Your task to perform on an android device: Clear the shopping cart on target. Add "logitech g903" to the cart on target Image 0: 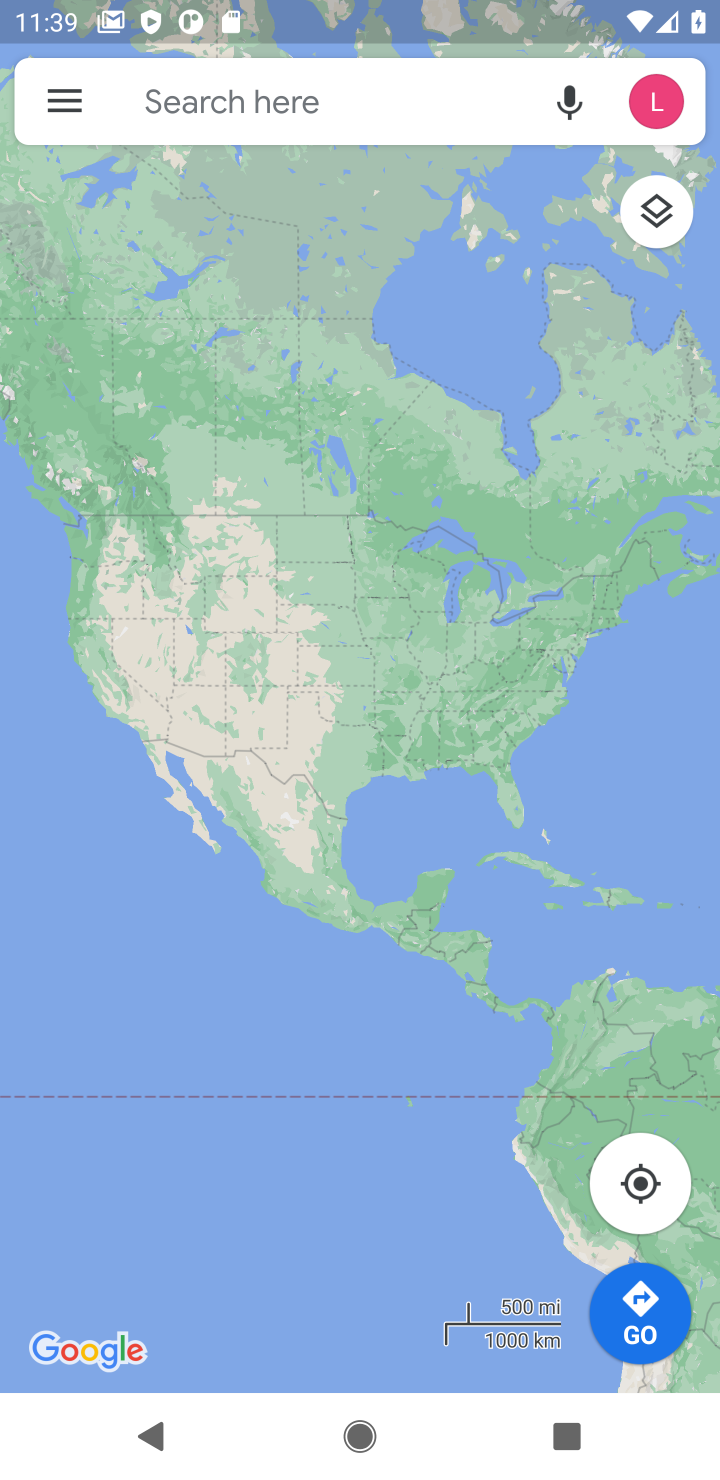
Step 0: press home button
Your task to perform on an android device: Clear the shopping cart on target. Add "logitech g903" to the cart on target Image 1: 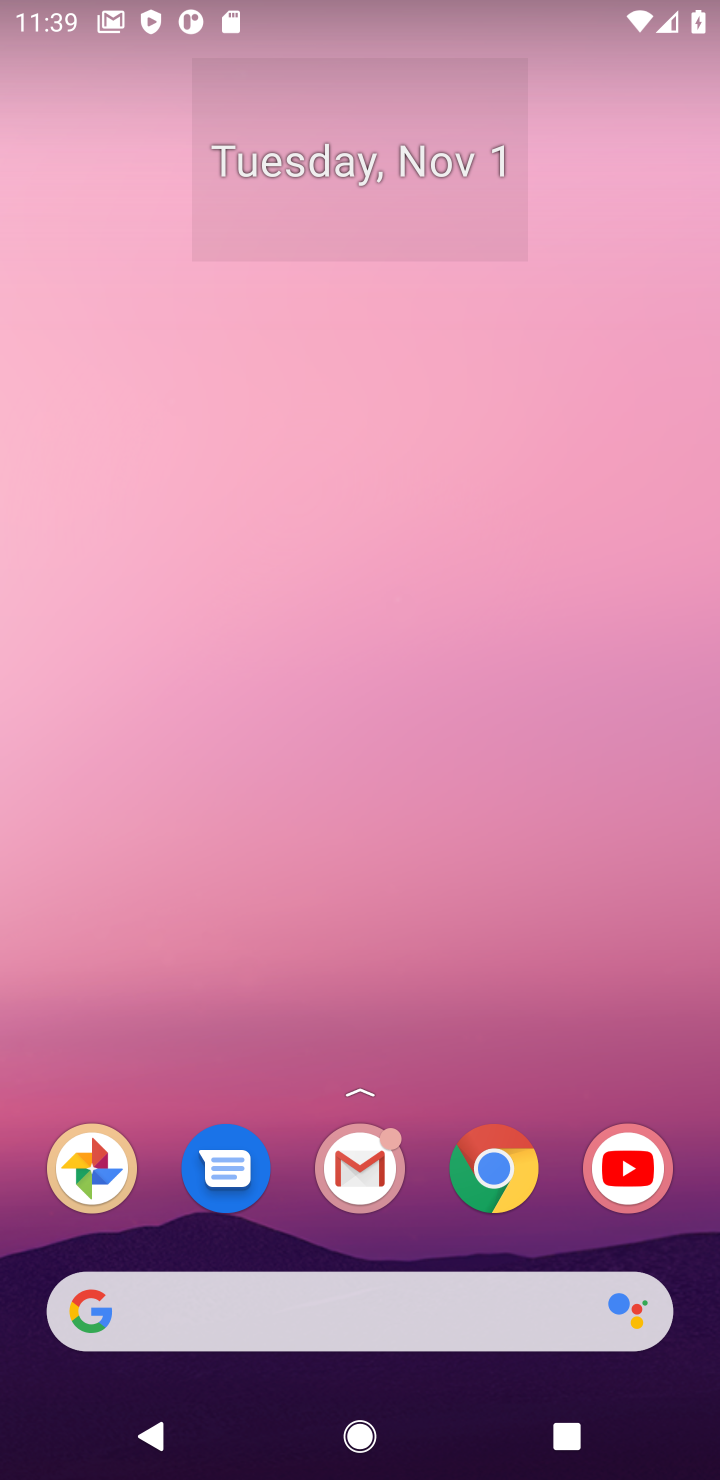
Step 1: click (516, 1176)
Your task to perform on an android device: Clear the shopping cart on target. Add "logitech g903" to the cart on target Image 2: 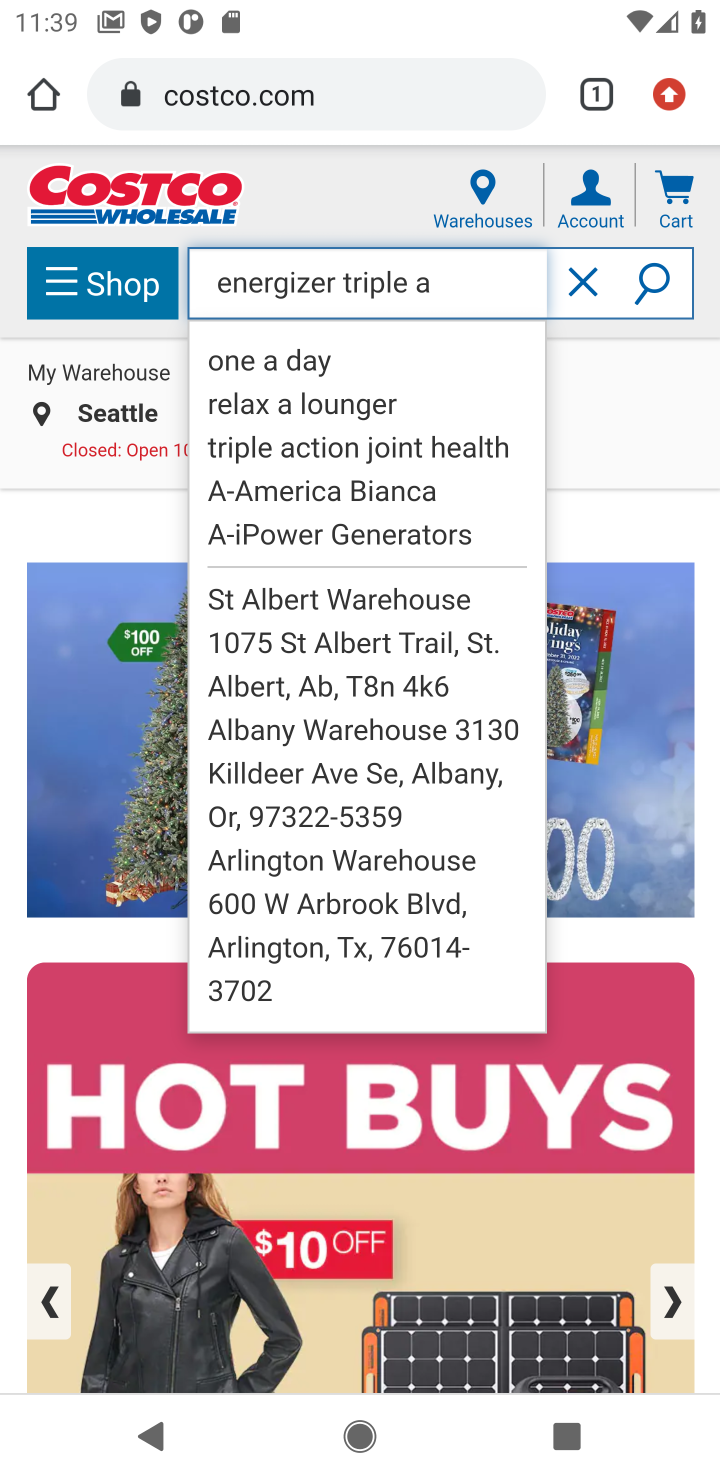
Step 2: click (436, 84)
Your task to perform on an android device: Clear the shopping cart on target. Add "logitech g903" to the cart on target Image 3: 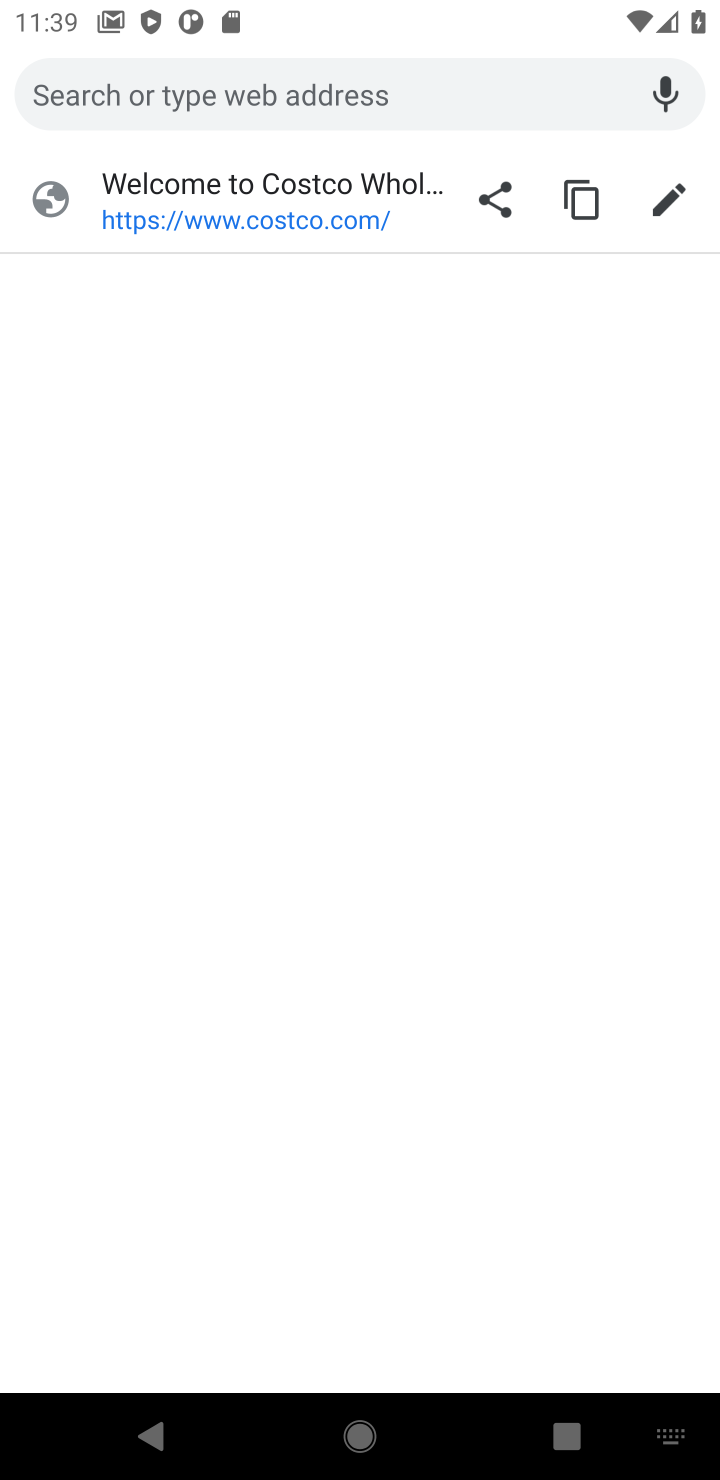
Step 3: type "target"
Your task to perform on an android device: Clear the shopping cart on target. Add "logitech g903" to the cart on target Image 4: 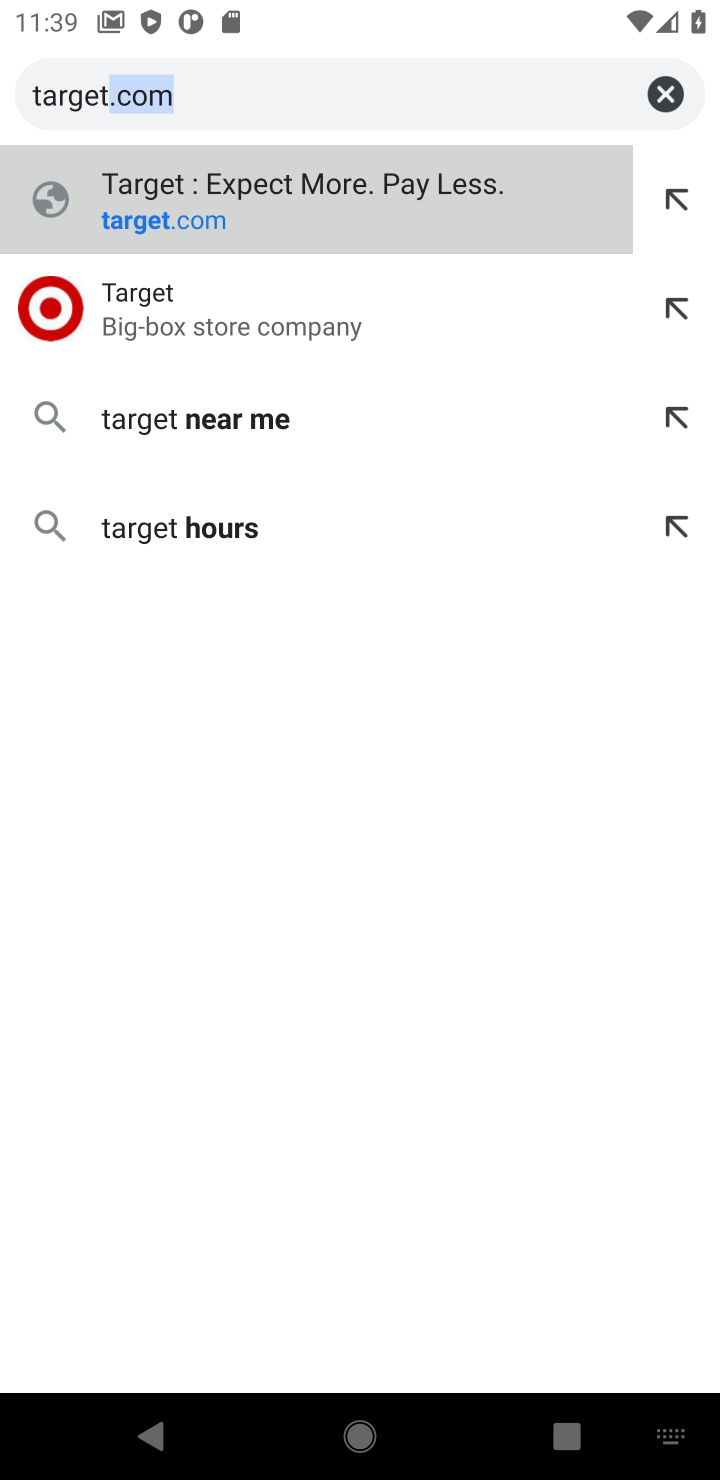
Step 4: click (217, 330)
Your task to perform on an android device: Clear the shopping cart on target. Add "logitech g903" to the cart on target Image 5: 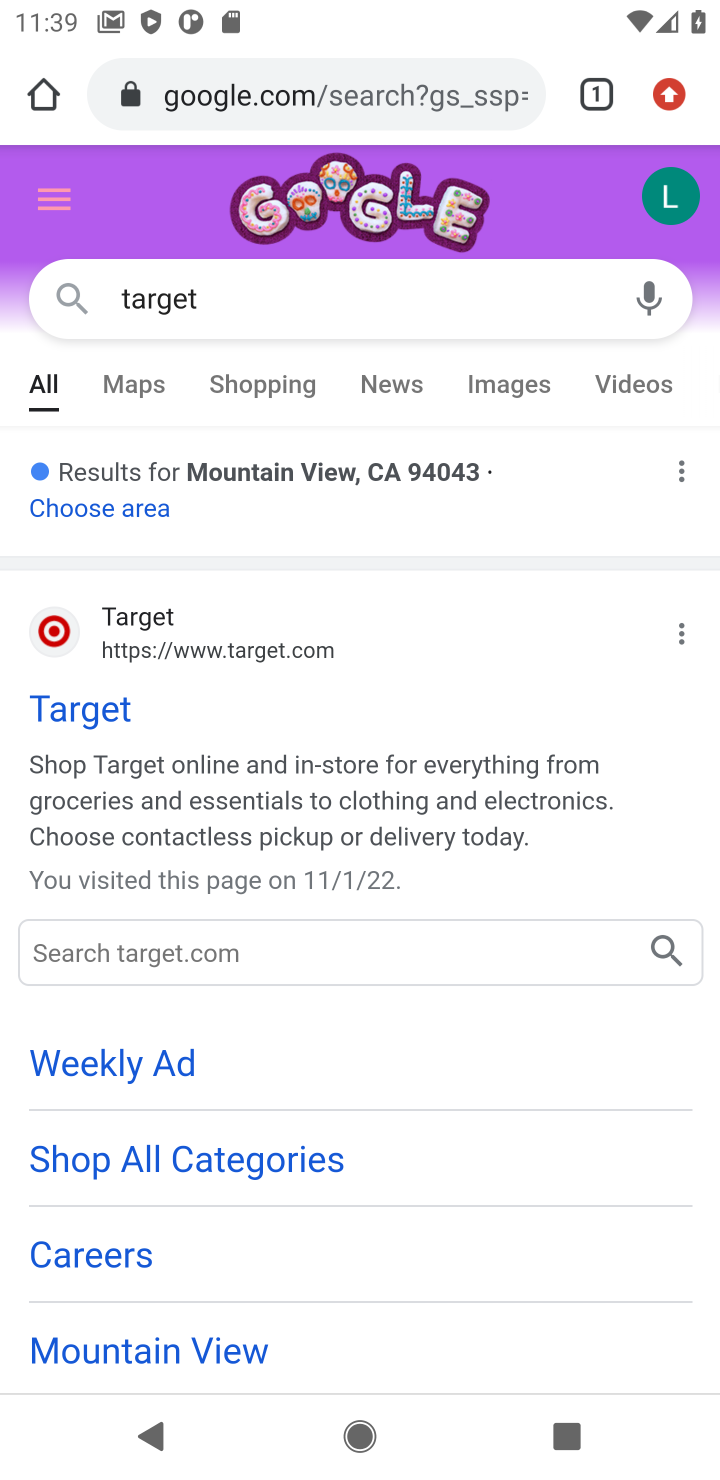
Step 5: click (131, 634)
Your task to perform on an android device: Clear the shopping cart on target. Add "logitech g903" to the cart on target Image 6: 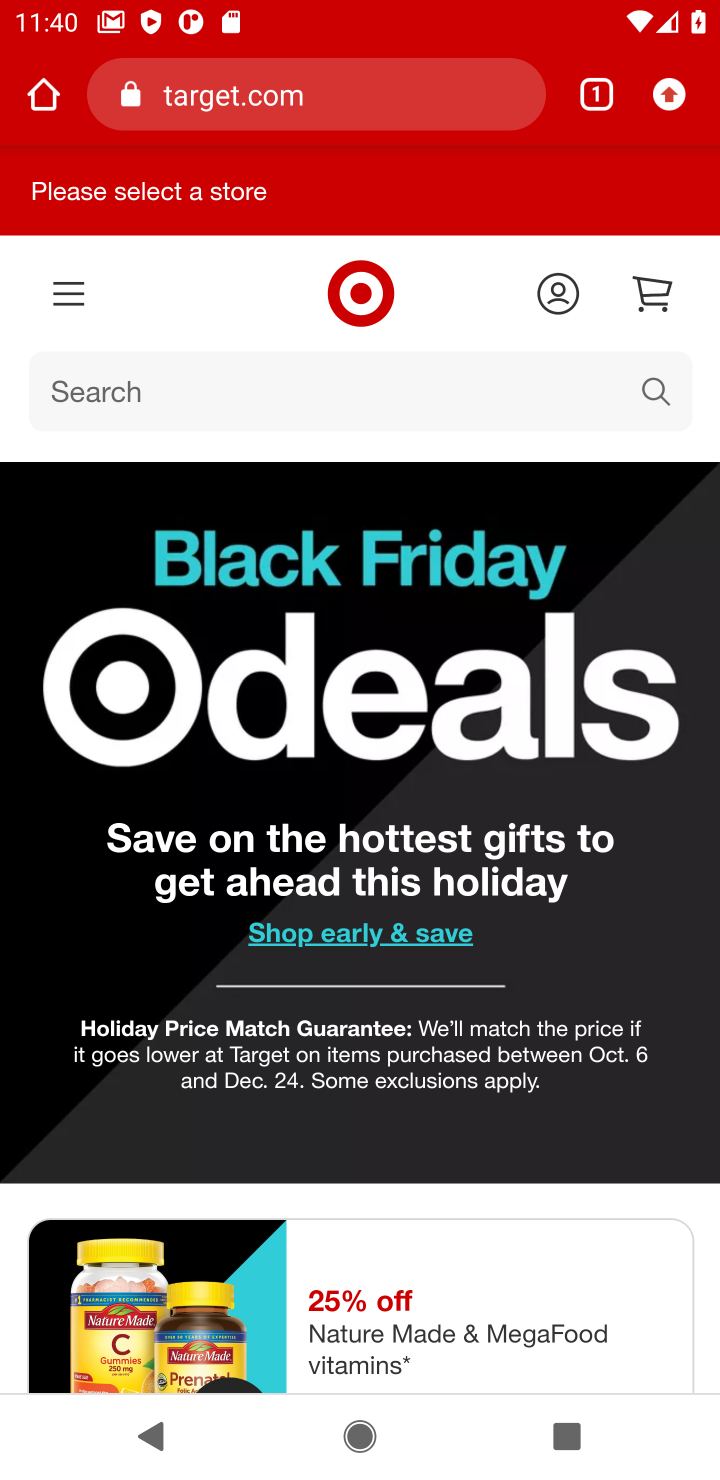
Step 6: click (308, 358)
Your task to perform on an android device: Clear the shopping cart on target. Add "logitech g903" to the cart on target Image 7: 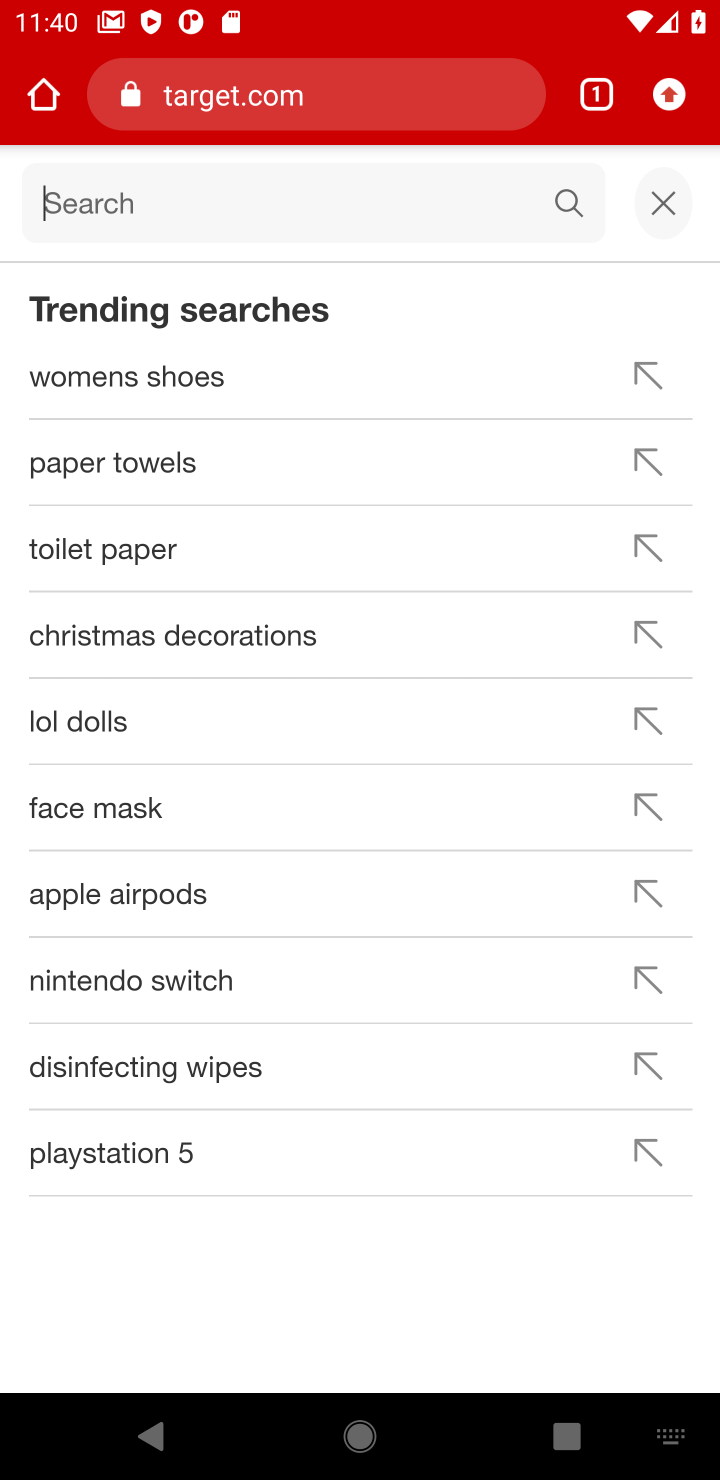
Step 7: type "logitech g903"
Your task to perform on an android device: Clear the shopping cart on target. Add "logitech g903" to the cart on target Image 8: 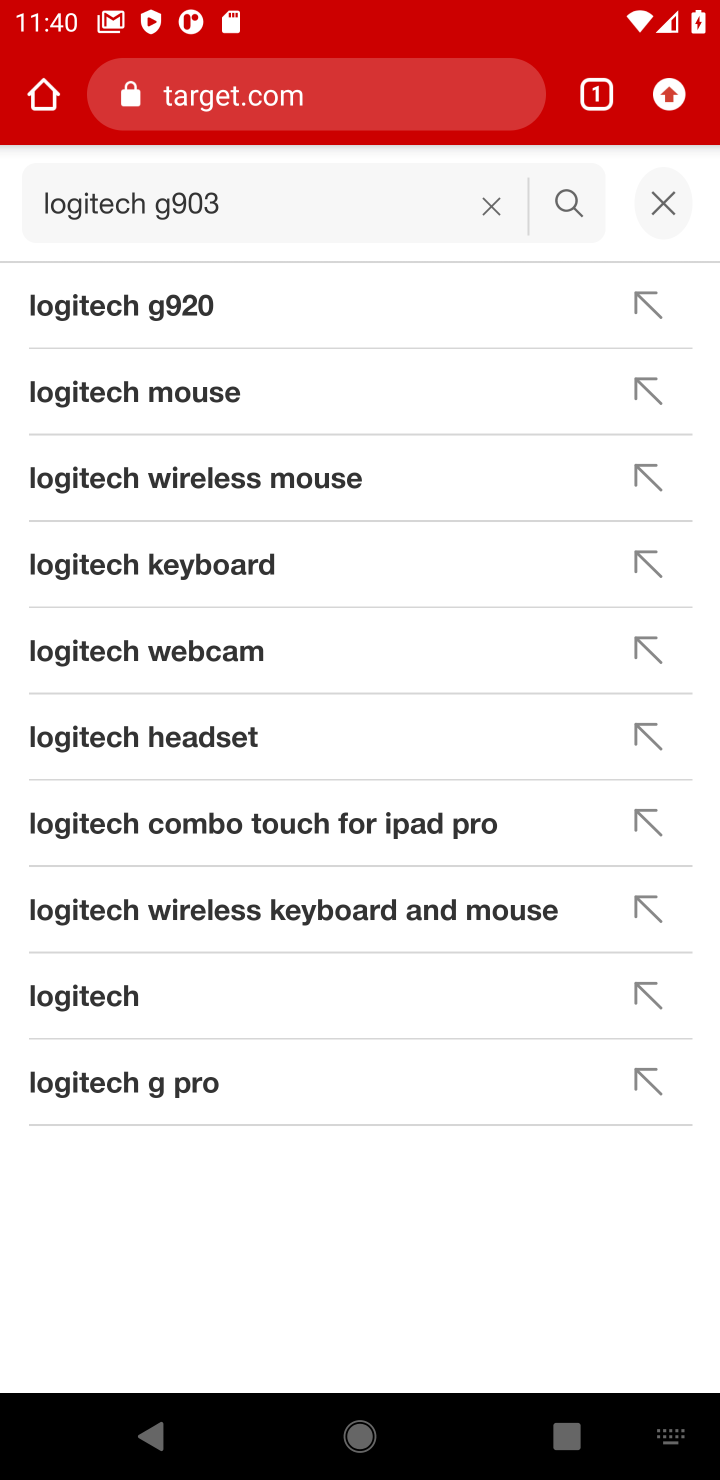
Step 8: click (394, 196)
Your task to perform on an android device: Clear the shopping cart on target. Add "logitech g903" to the cart on target Image 9: 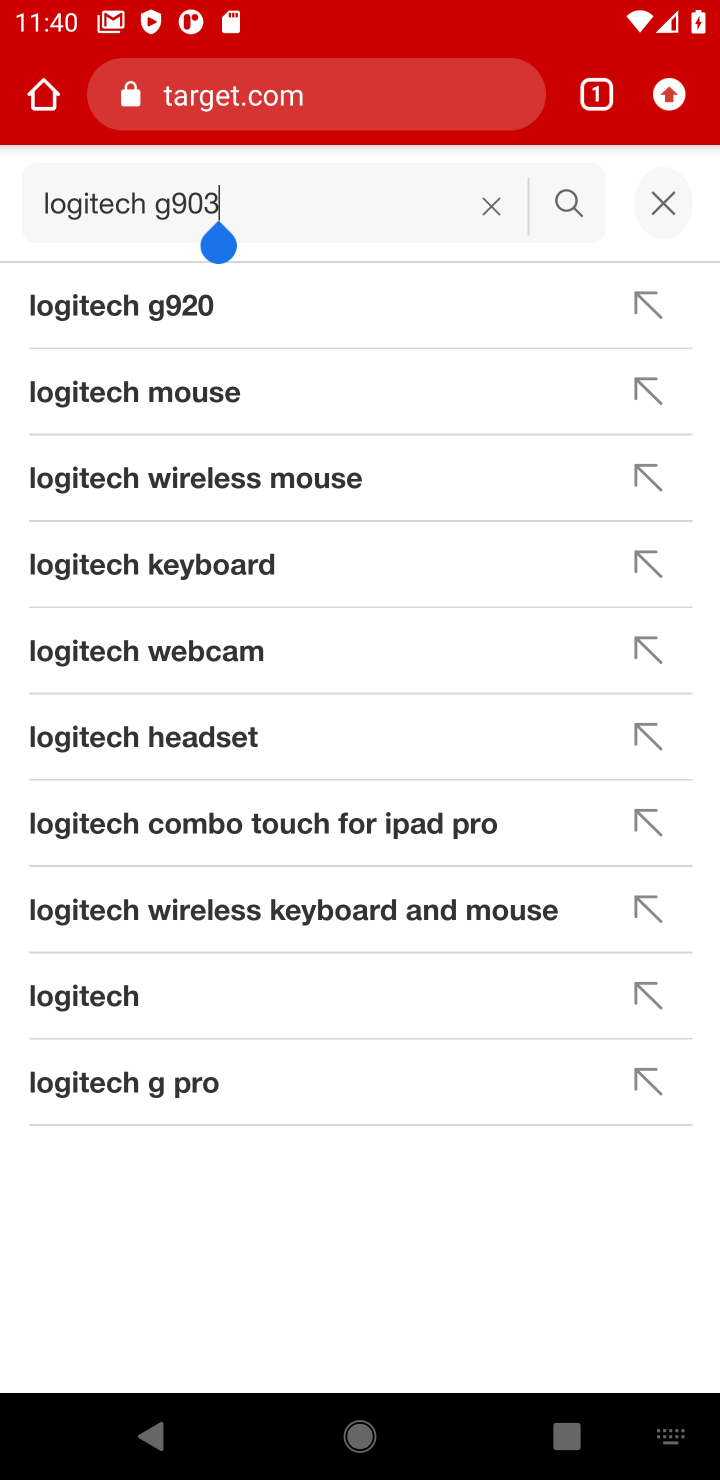
Step 9: click (161, 291)
Your task to perform on an android device: Clear the shopping cart on target. Add "logitech g903" to the cart on target Image 10: 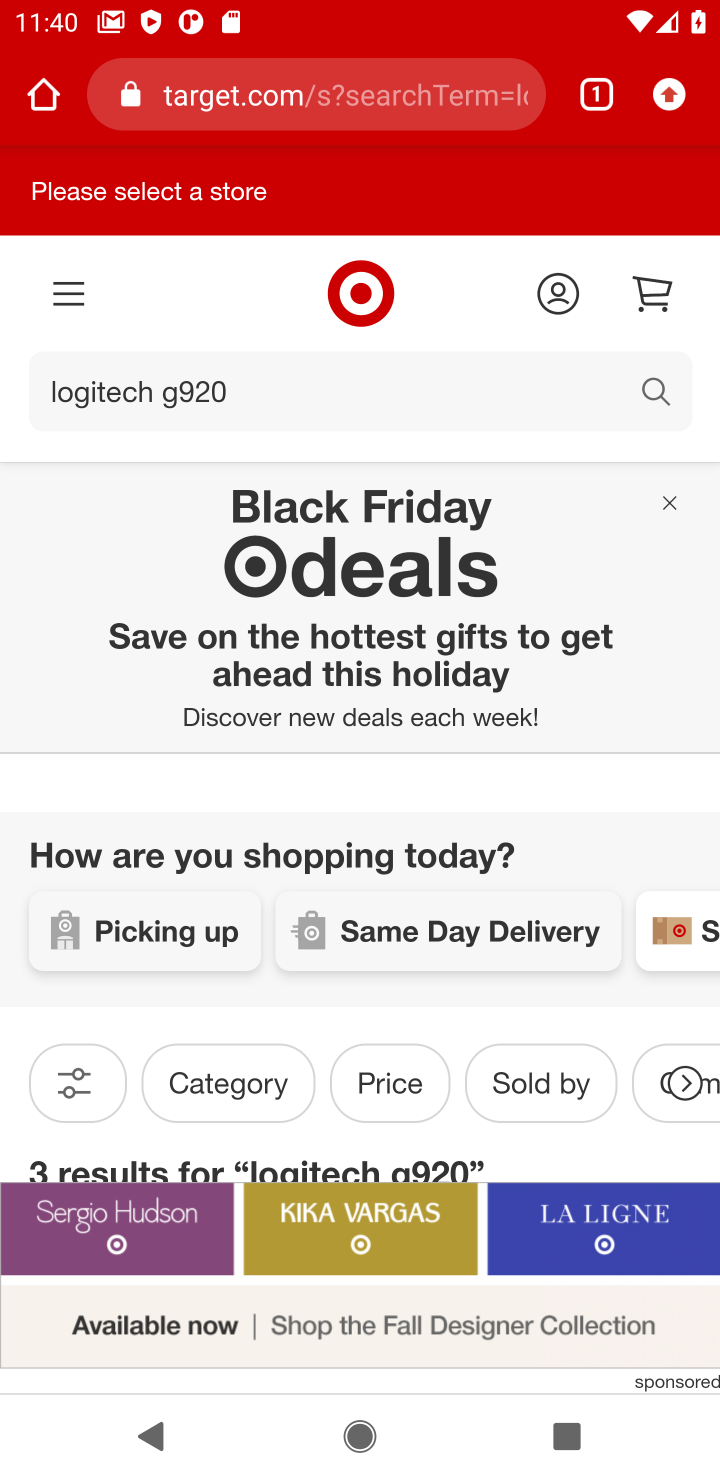
Step 10: drag from (528, 1150) to (446, 293)
Your task to perform on an android device: Clear the shopping cart on target. Add "logitech g903" to the cart on target Image 11: 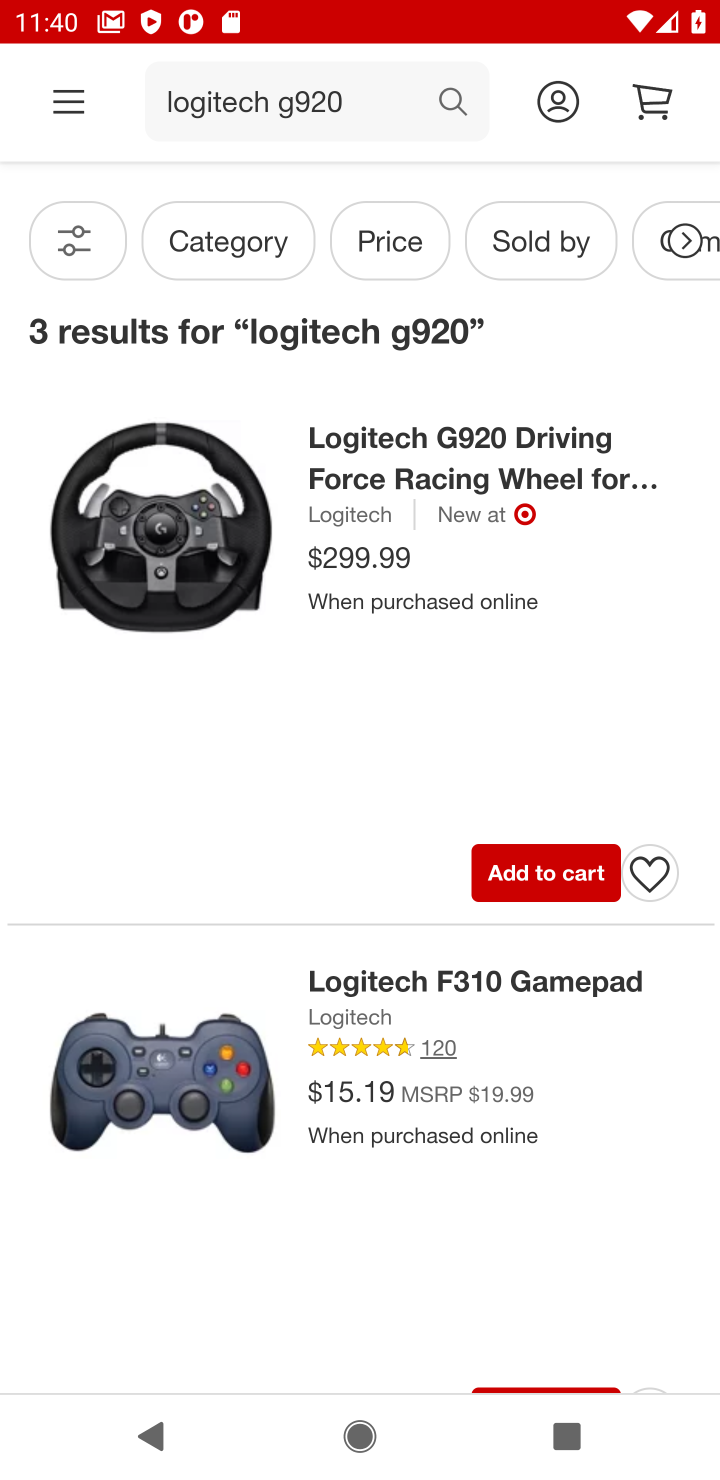
Step 11: drag from (554, 1057) to (466, 372)
Your task to perform on an android device: Clear the shopping cart on target. Add "logitech g903" to the cart on target Image 12: 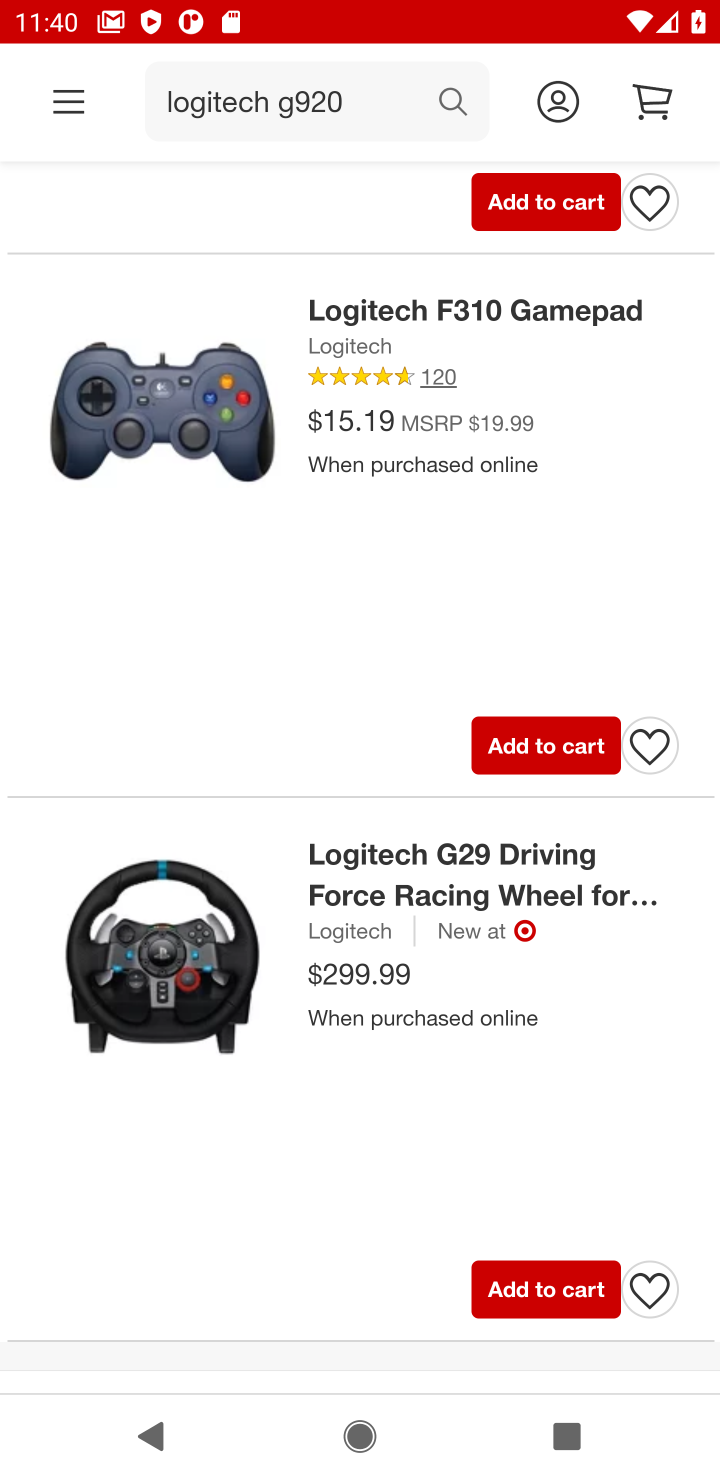
Step 12: drag from (484, 903) to (437, 440)
Your task to perform on an android device: Clear the shopping cart on target. Add "logitech g903" to the cart on target Image 13: 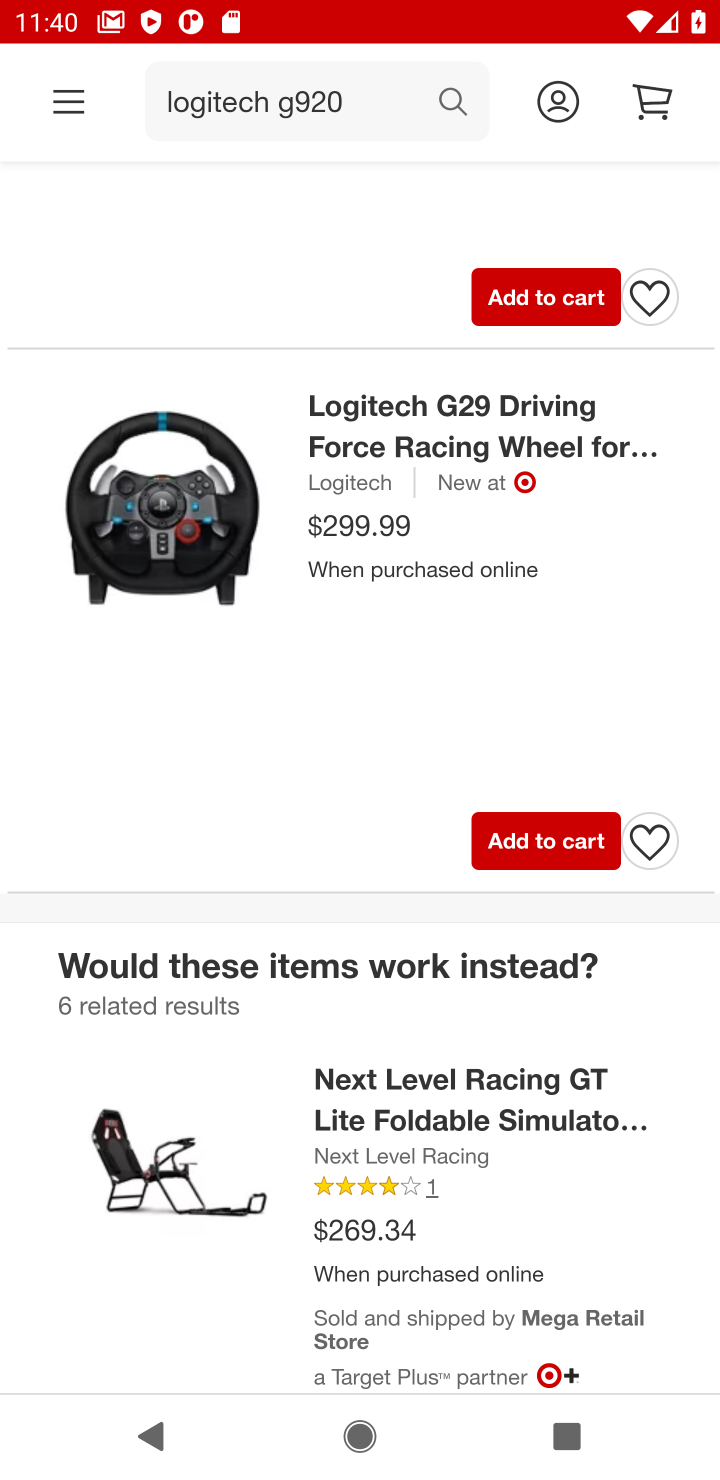
Step 13: drag from (512, 1102) to (445, 460)
Your task to perform on an android device: Clear the shopping cart on target. Add "logitech g903" to the cart on target Image 14: 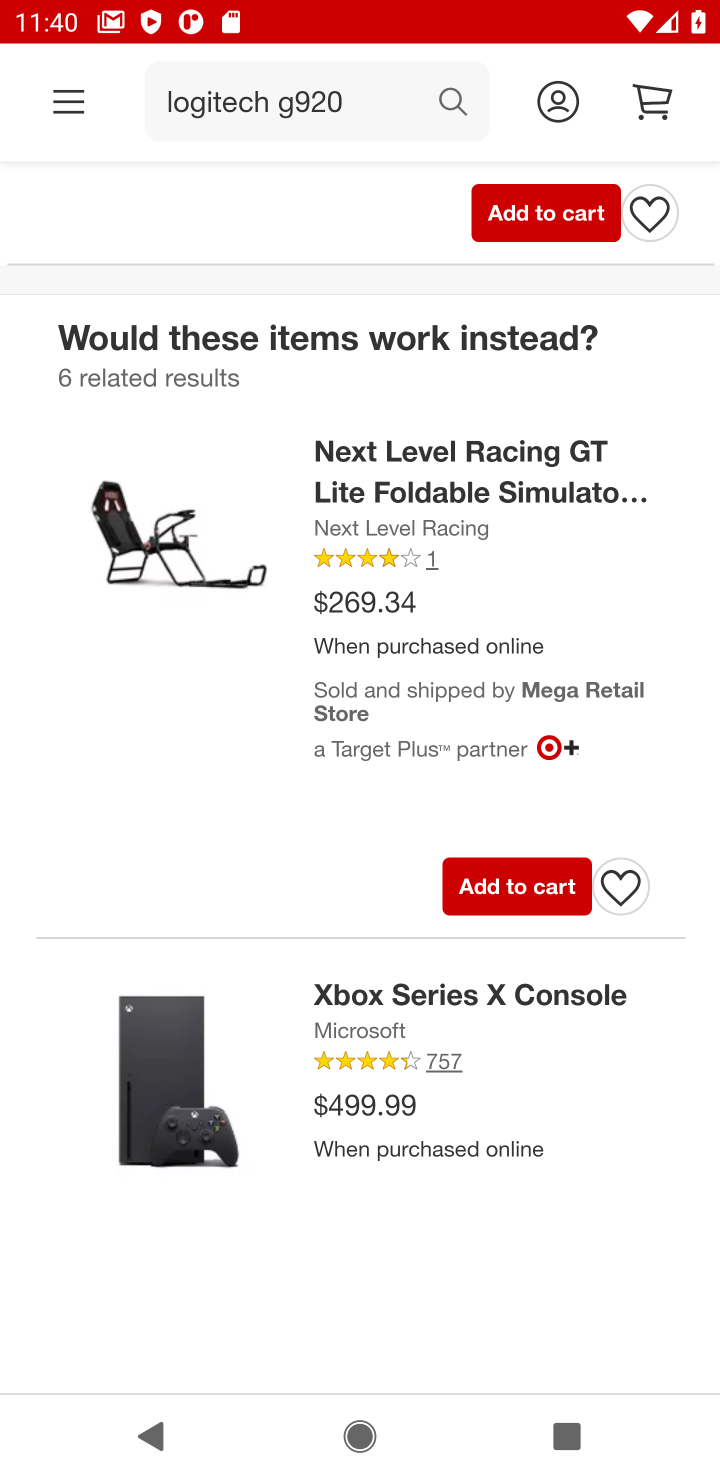
Step 14: drag from (423, 1112) to (409, 407)
Your task to perform on an android device: Clear the shopping cart on target. Add "logitech g903" to the cart on target Image 15: 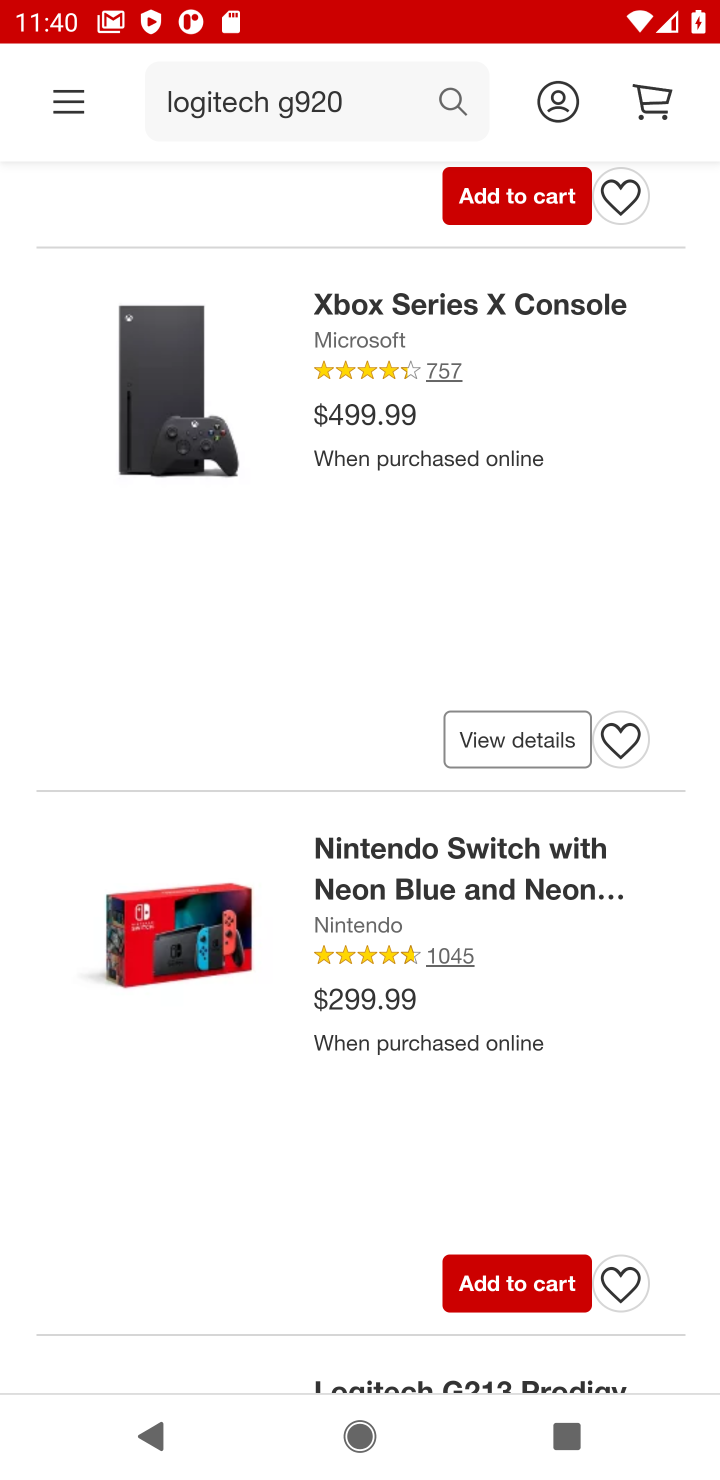
Step 15: drag from (436, 861) to (497, 440)
Your task to perform on an android device: Clear the shopping cart on target. Add "logitech g903" to the cart on target Image 16: 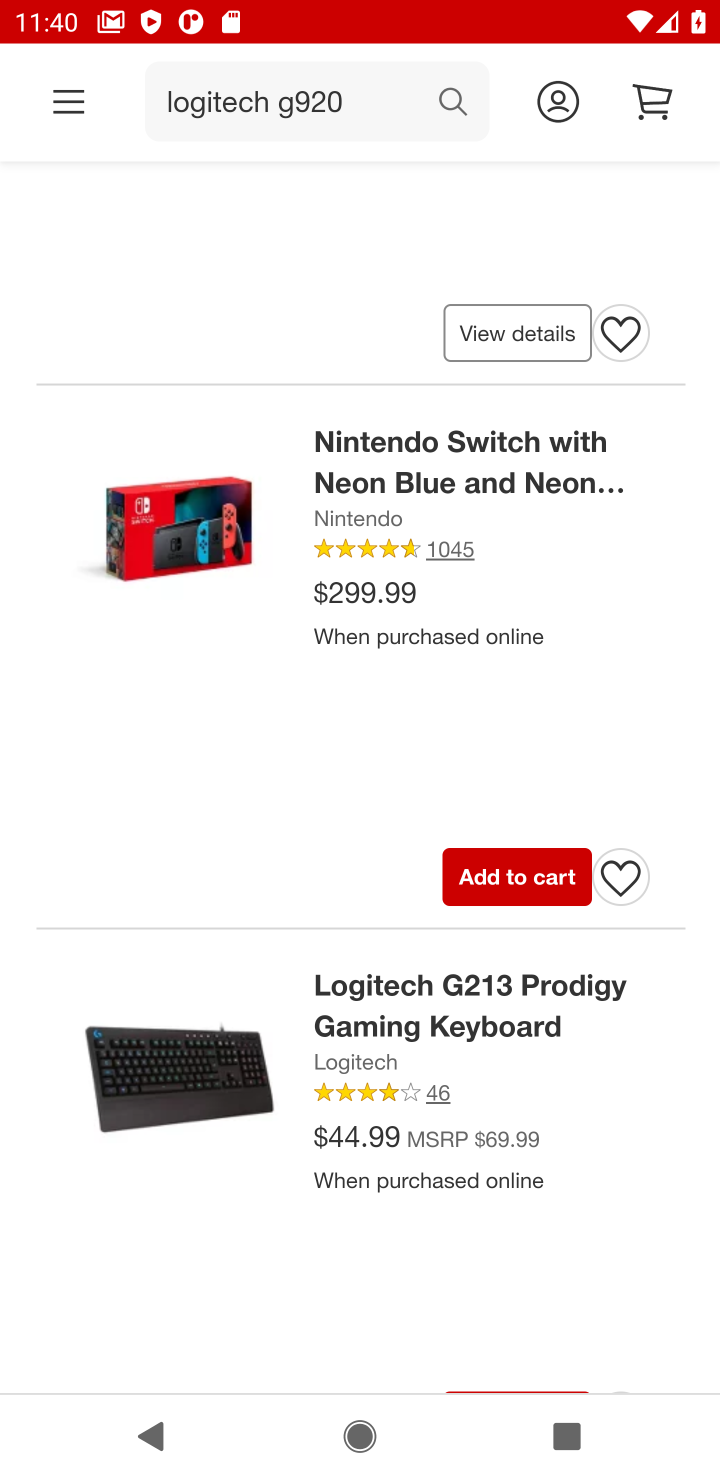
Step 16: drag from (453, 1126) to (514, 485)
Your task to perform on an android device: Clear the shopping cart on target. Add "logitech g903" to the cart on target Image 17: 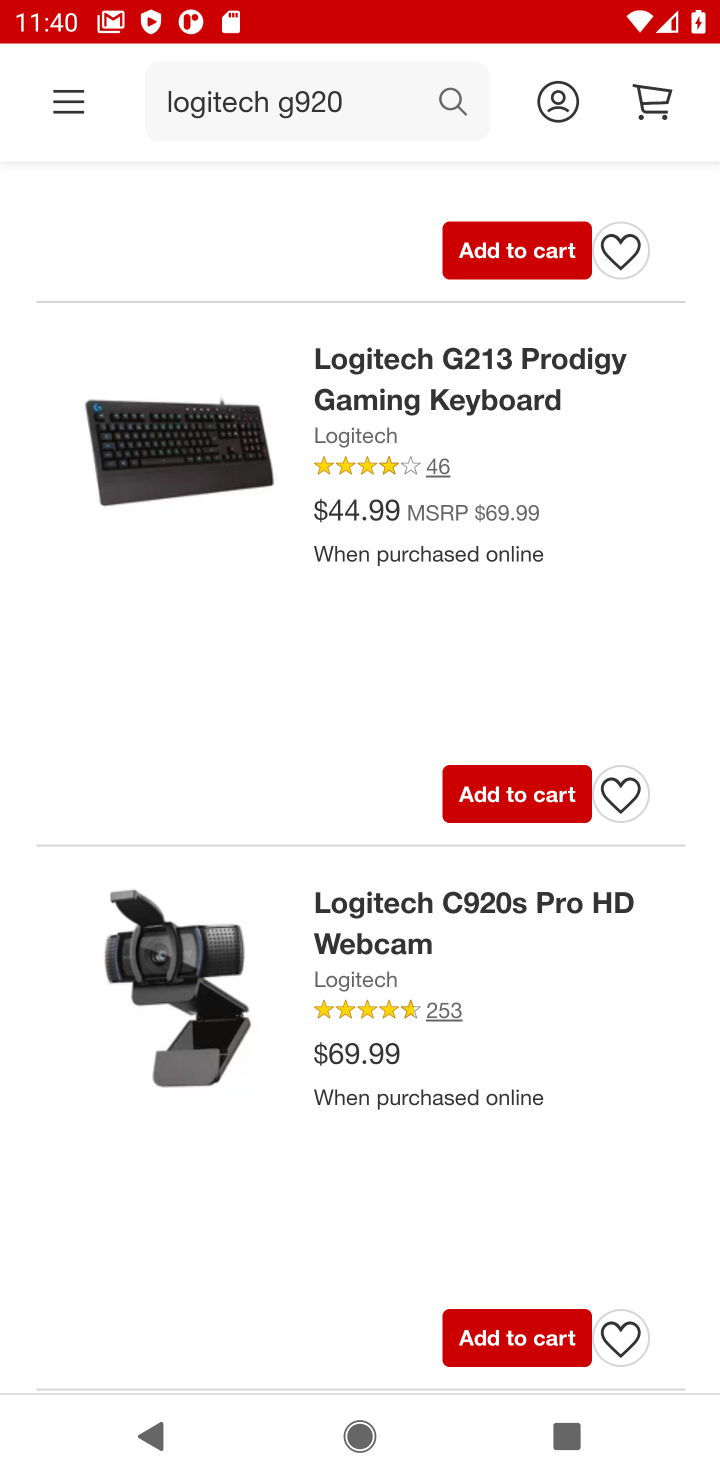
Step 17: drag from (496, 1028) to (510, 466)
Your task to perform on an android device: Clear the shopping cart on target. Add "logitech g903" to the cart on target Image 18: 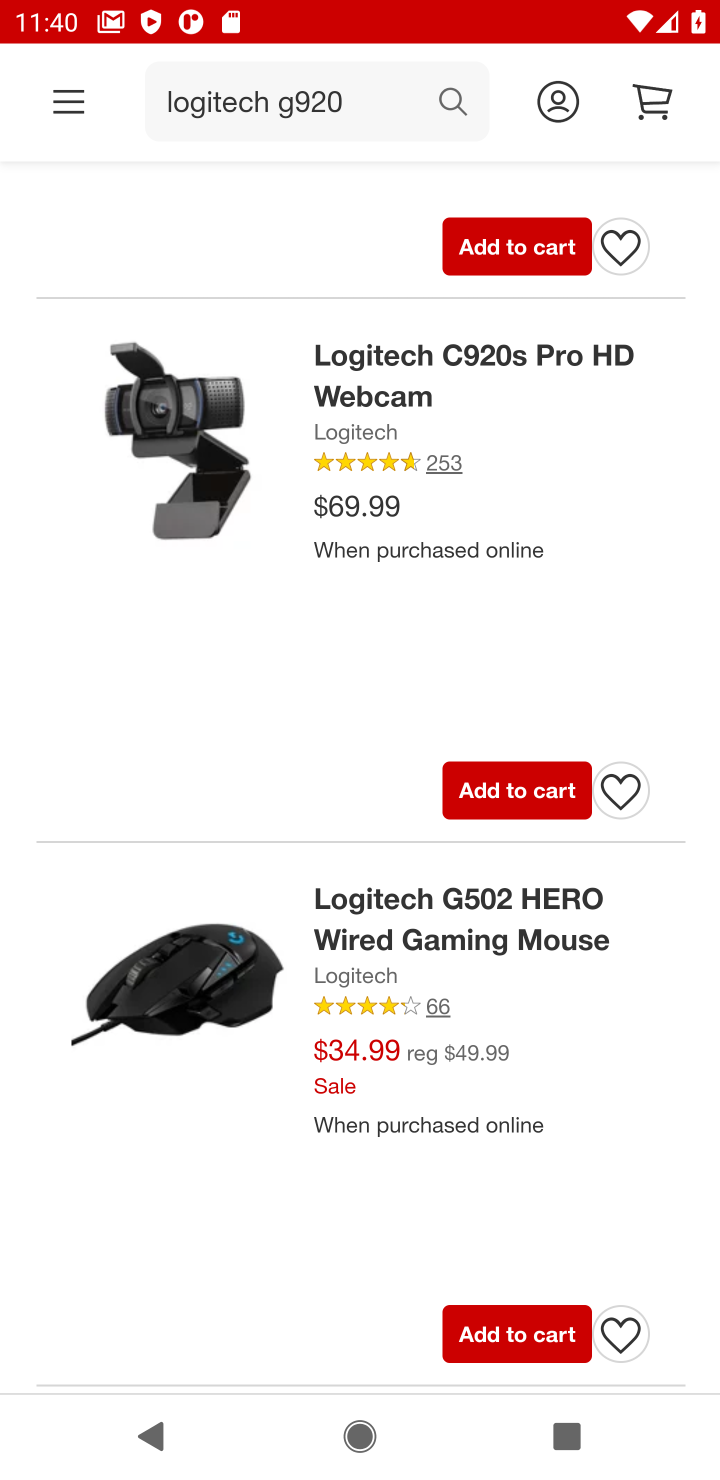
Step 18: drag from (514, 1165) to (486, 402)
Your task to perform on an android device: Clear the shopping cart on target. Add "logitech g903" to the cart on target Image 19: 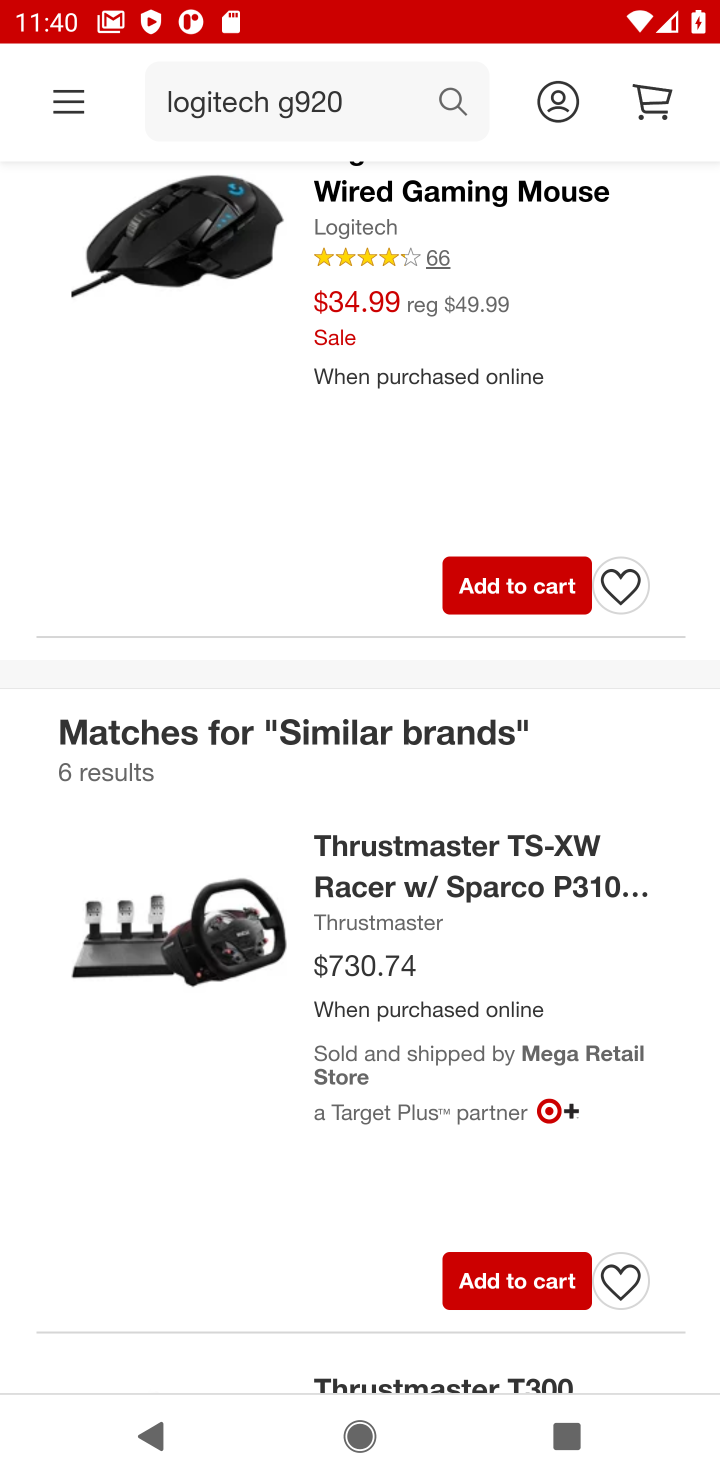
Step 19: drag from (492, 979) to (492, 398)
Your task to perform on an android device: Clear the shopping cart on target. Add "logitech g903" to the cart on target Image 20: 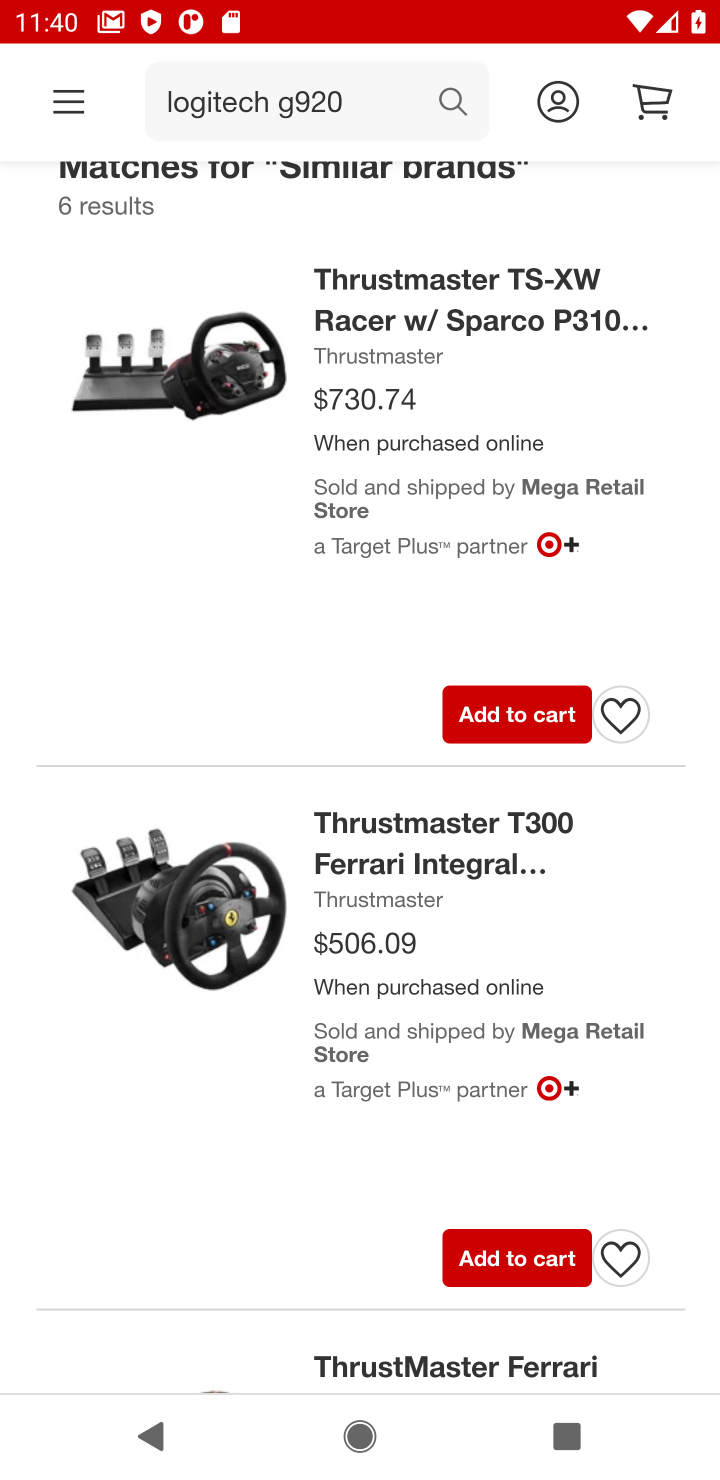
Step 20: drag from (365, 929) to (510, 425)
Your task to perform on an android device: Clear the shopping cart on target. Add "logitech g903" to the cart on target Image 21: 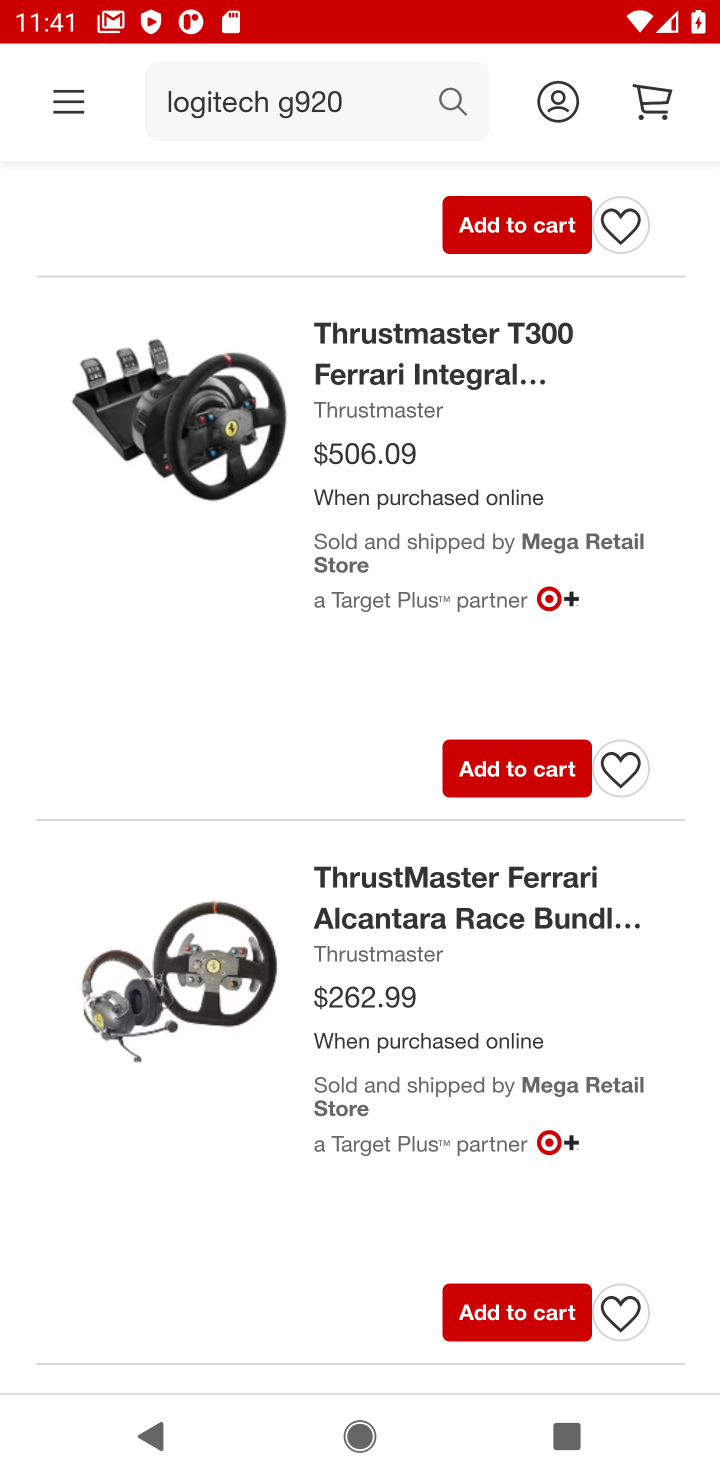
Step 21: drag from (411, 954) to (389, 379)
Your task to perform on an android device: Clear the shopping cart on target. Add "logitech g903" to the cart on target Image 22: 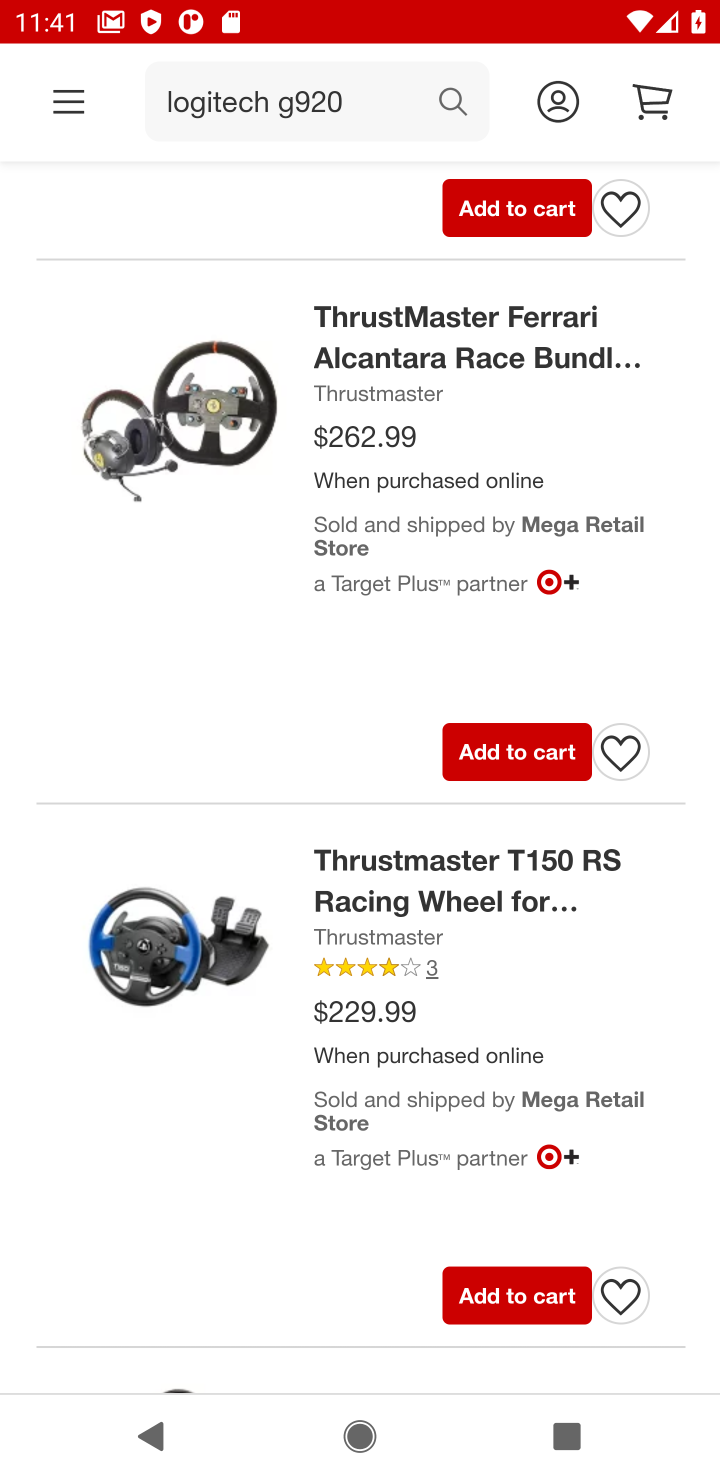
Step 22: drag from (341, 1061) to (309, 406)
Your task to perform on an android device: Clear the shopping cart on target. Add "logitech g903" to the cart on target Image 23: 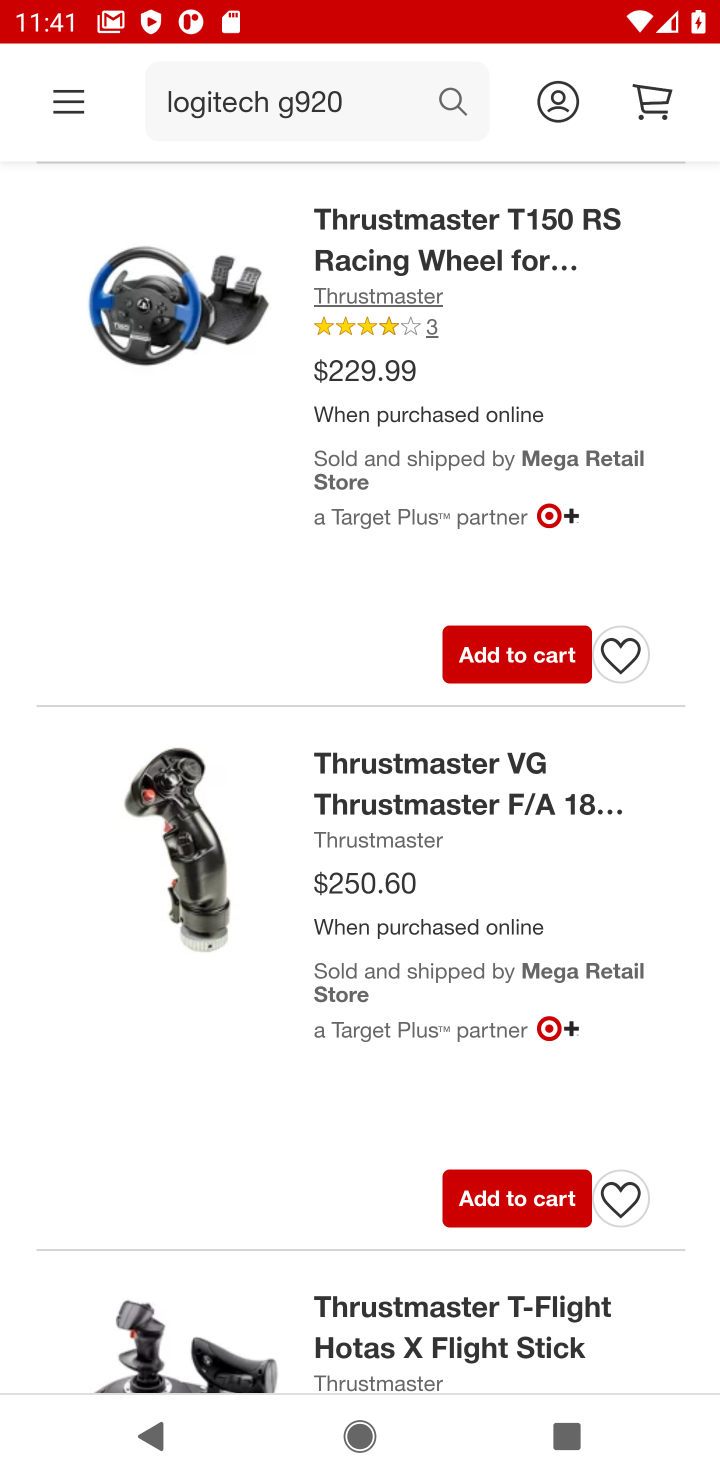
Step 23: drag from (438, 1331) to (360, 543)
Your task to perform on an android device: Clear the shopping cart on target. Add "logitech g903" to the cart on target Image 24: 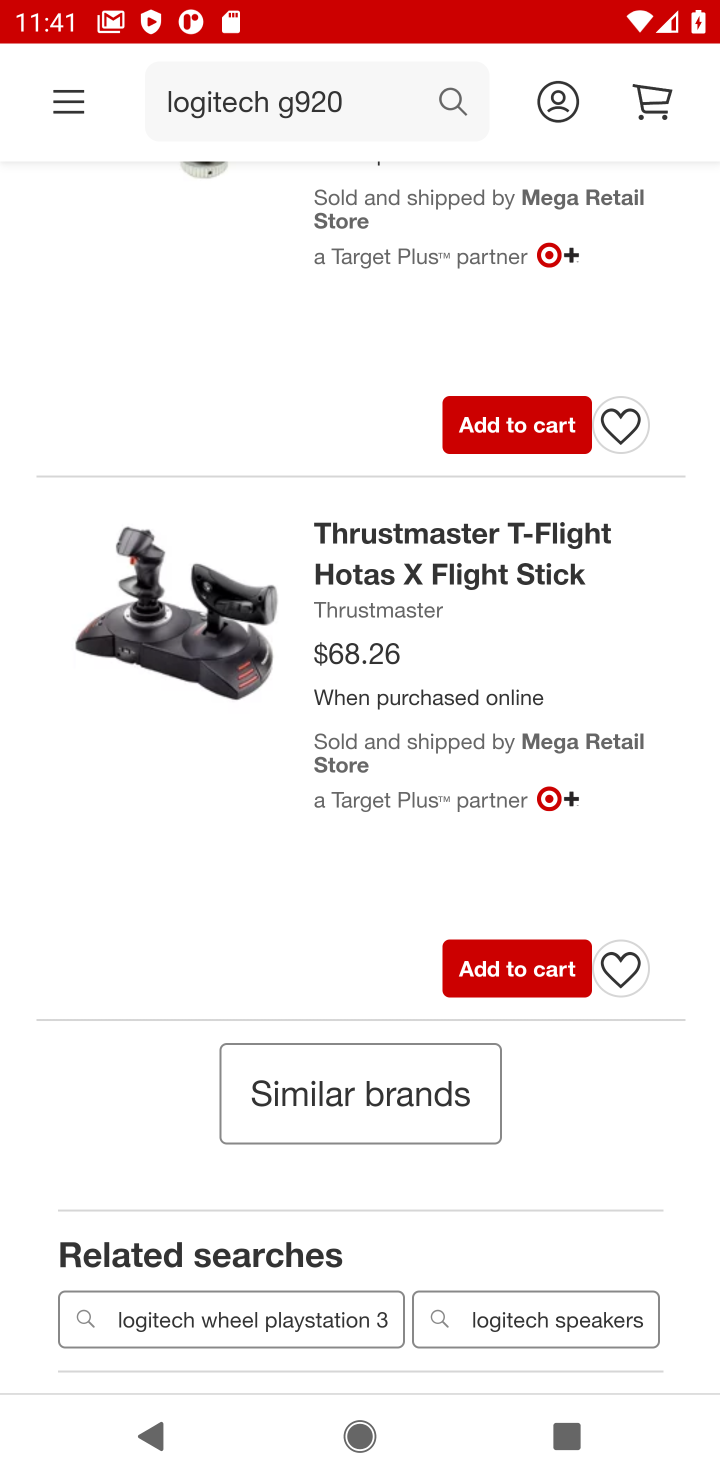
Step 24: drag from (374, 605) to (427, 1206)
Your task to perform on an android device: Clear the shopping cart on target. Add "logitech g903" to the cart on target Image 25: 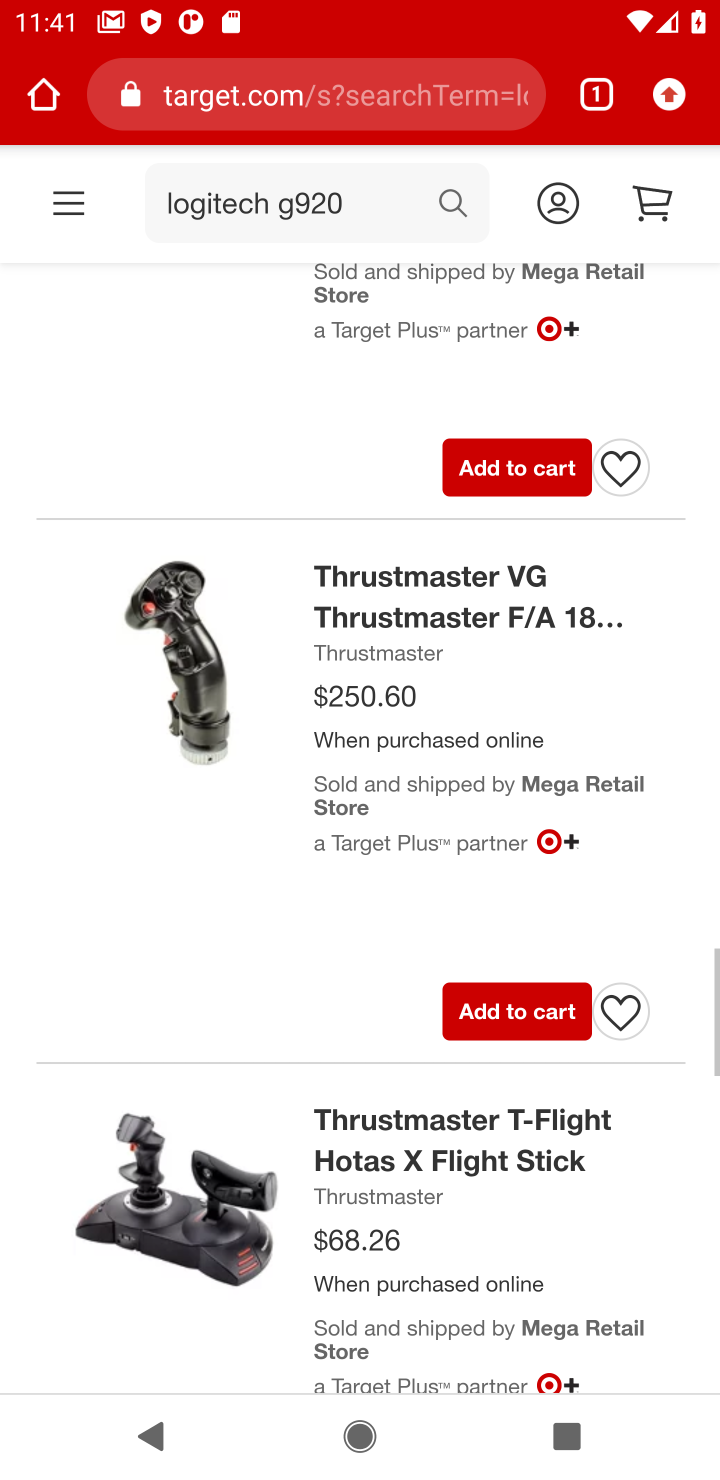
Step 25: drag from (384, 525) to (374, 1102)
Your task to perform on an android device: Clear the shopping cart on target. Add "logitech g903" to the cart on target Image 26: 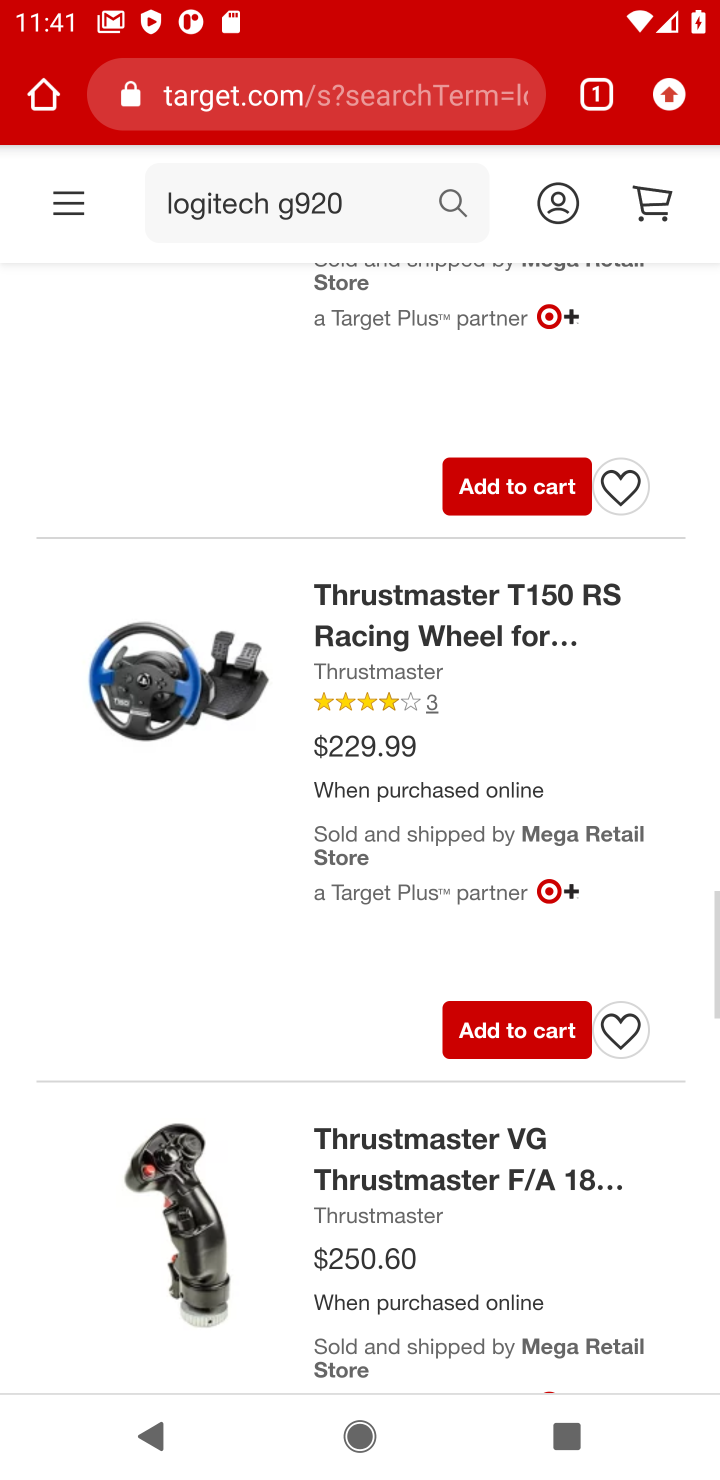
Step 26: drag from (324, 439) to (375, 1060)
Your task to perform on an android device: Clear the shopping cart on target. Add "logitech g903" to the cart on target Image 27: 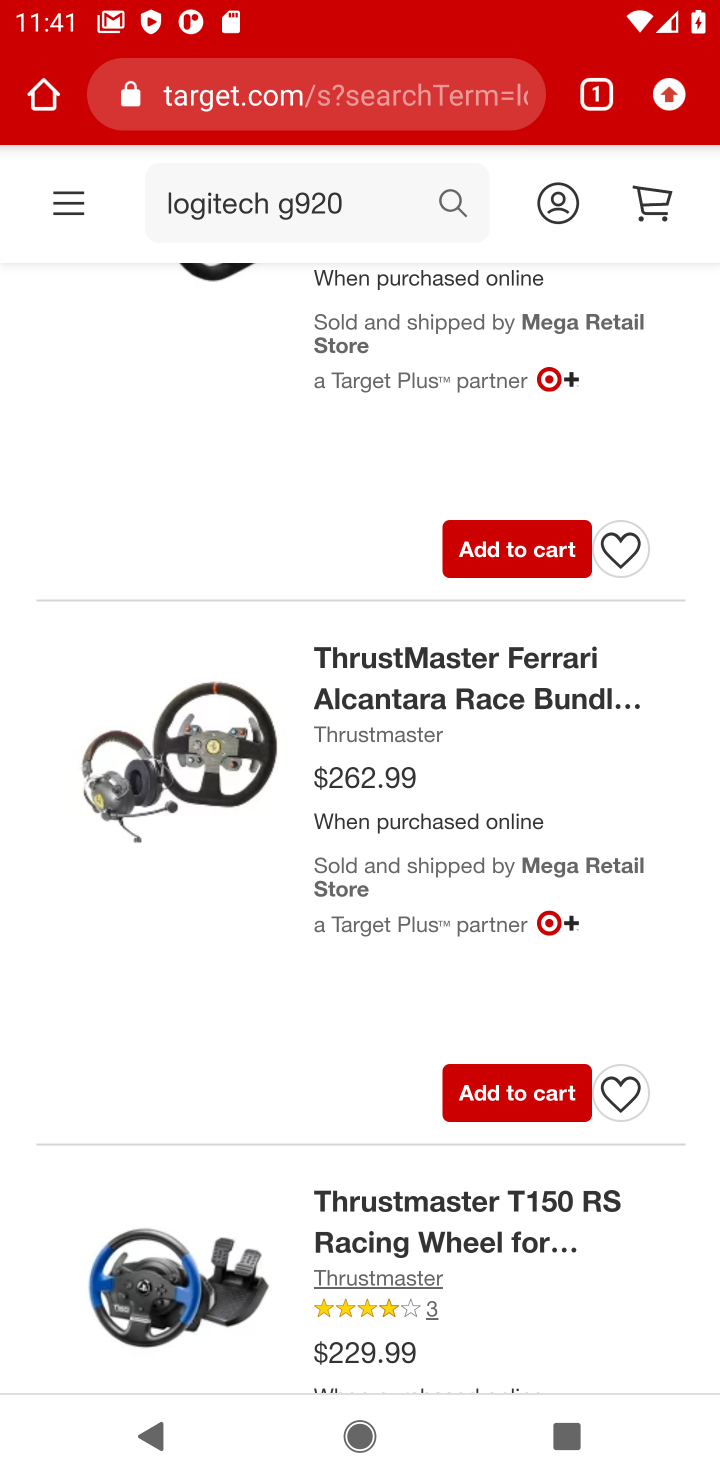
Step 27: drag from (294, 480) to (360, 1116)
Your task to perform on an android device: Clear the shopping cart on target. Add "logitech g903" to the cart on target Image 28: 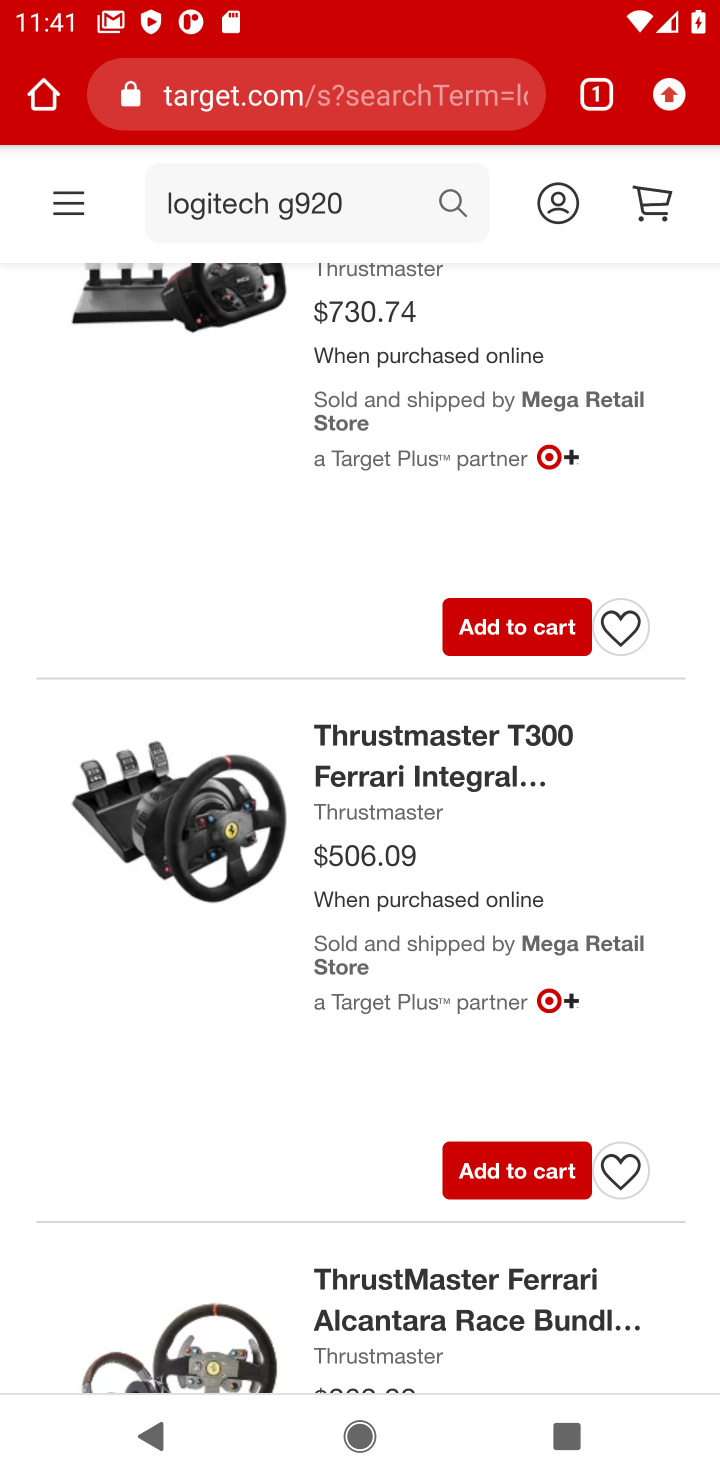
Step 28: drag from (231, 727) to (276, 1121)
Your task to perform on an android device: Clear the shopping cart on target. Add "logitech g903" to the cart on target Image 29: 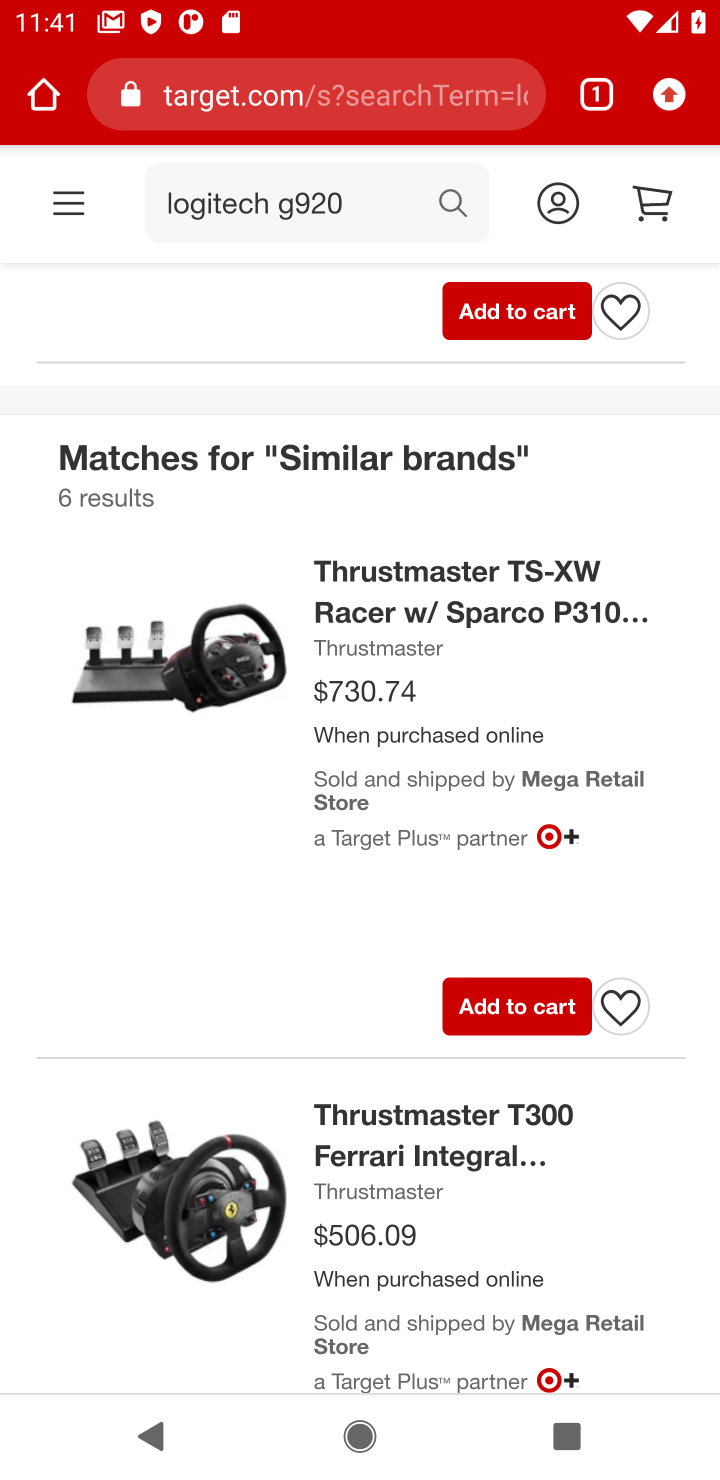
Step 29: drag from (202, 592) to (343, 1108)
Your task to perform on an android device: Clear the shopping cart on target. Add "logitech g903" to the cart on target Image 30: 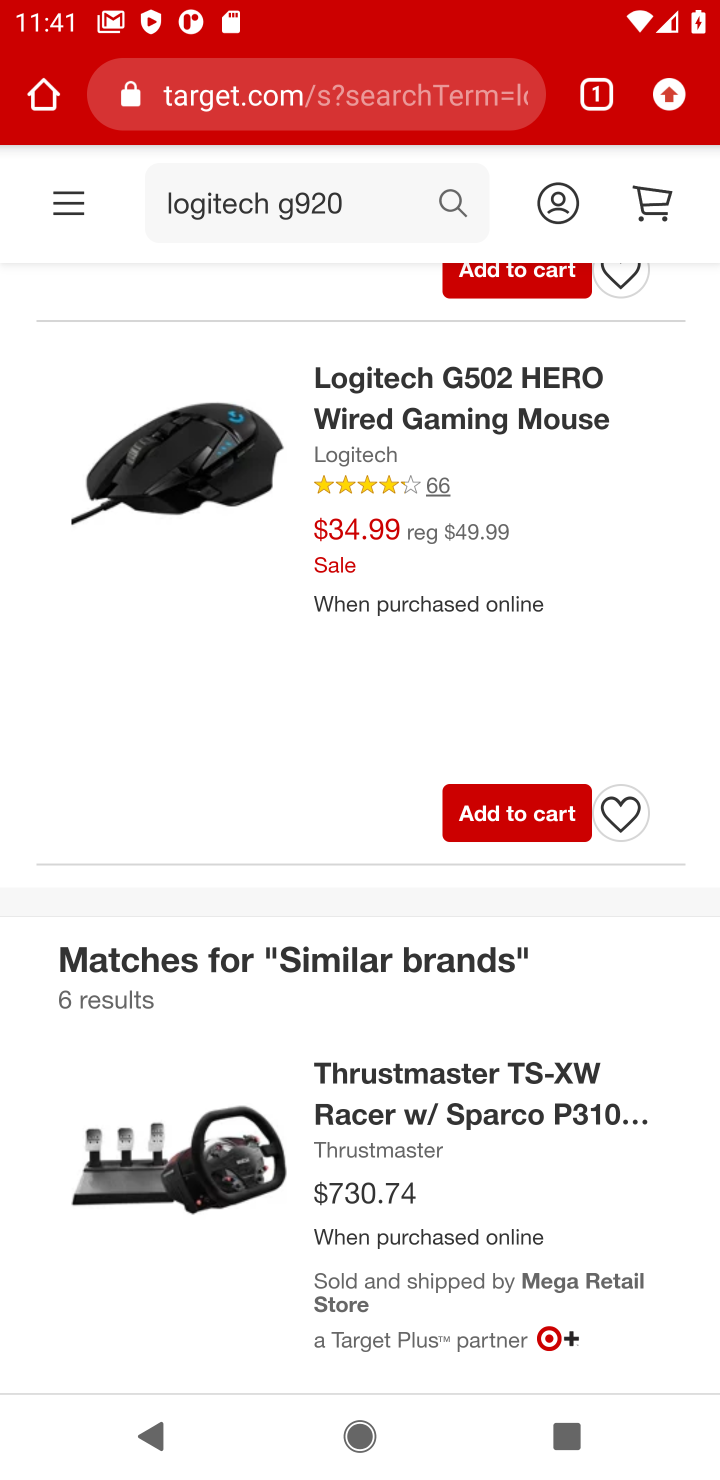
Step 30: click (142, 414)
Your task to perform on an android device: Clear the shopping cart on target. Add "logitech g903" to the cart on target Image 31: 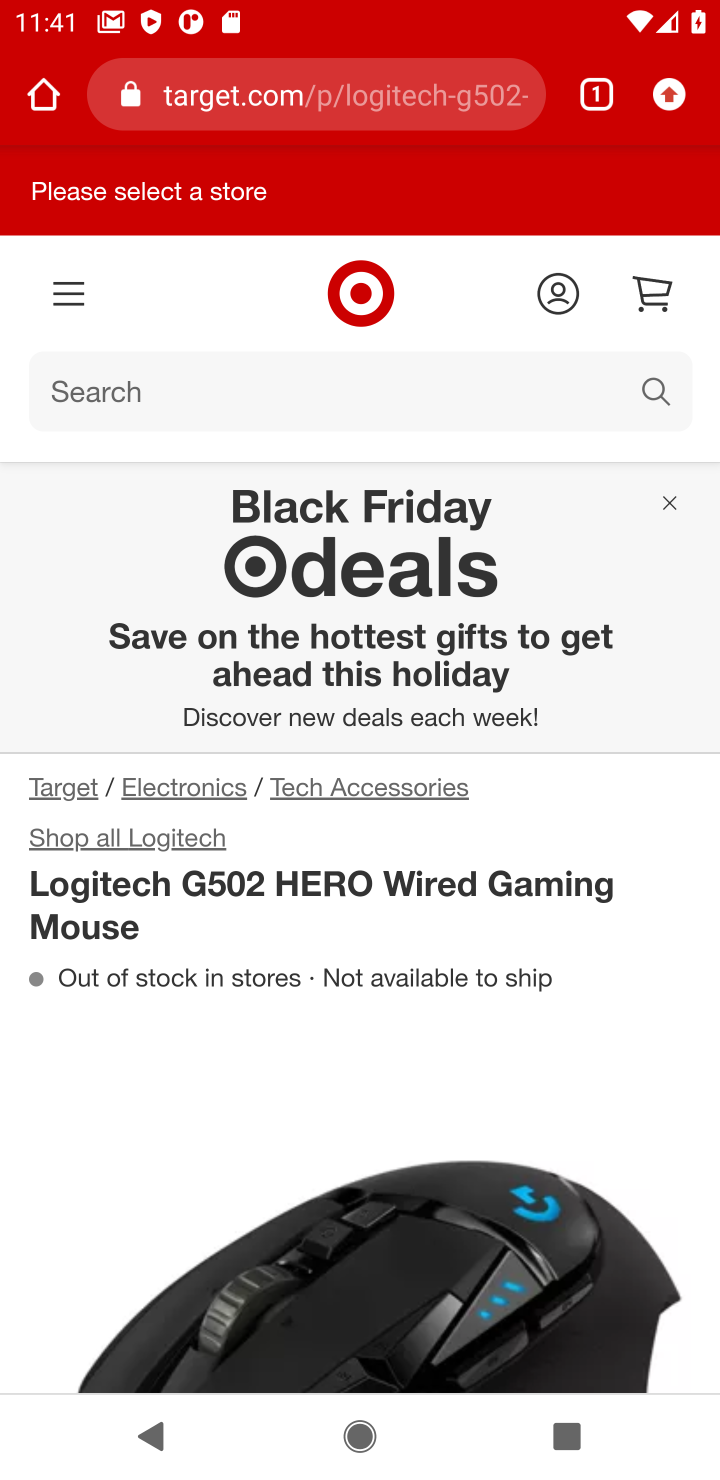
Step 31: drag from (615, 1044) to (581, 312)
Your task to perform on an android device: Clear the shopping cart on target. Add "logitech g903" to the cart on target Image 32: 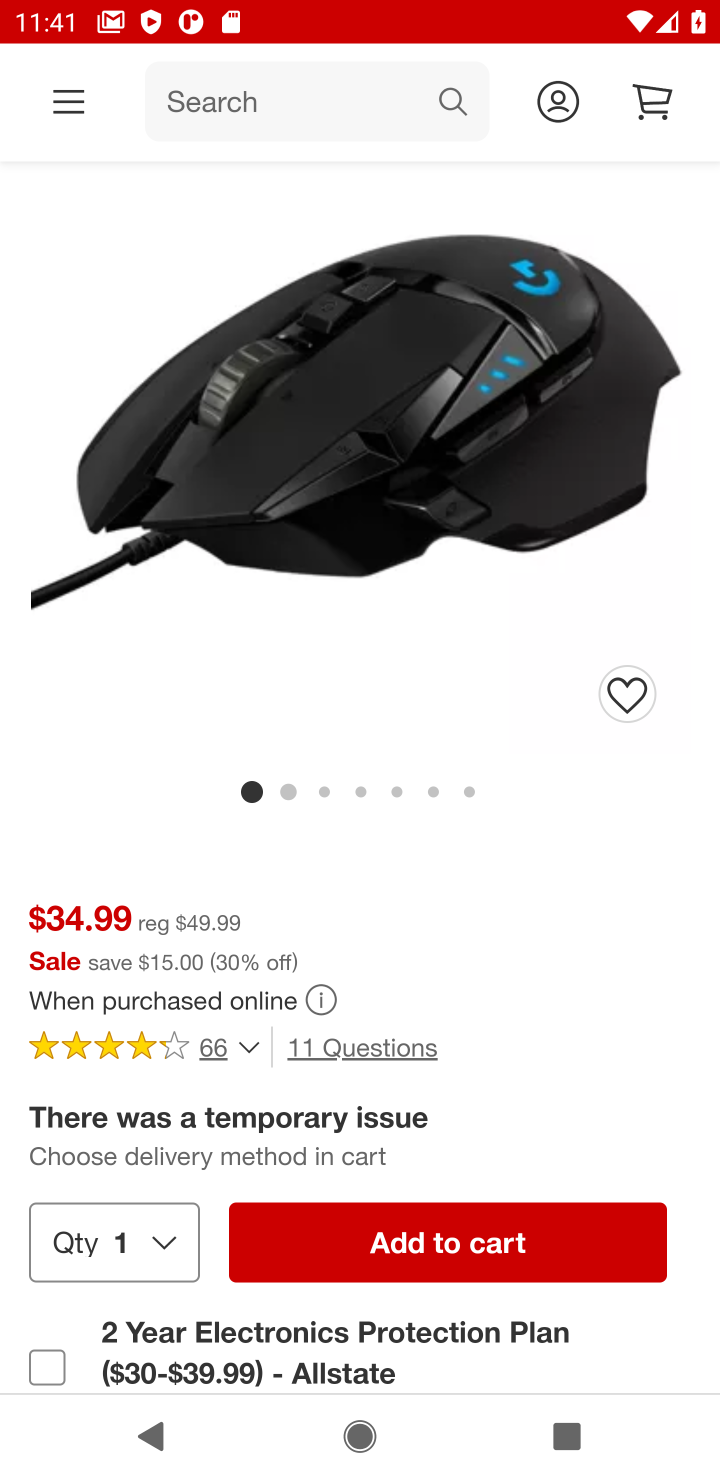
Step 32: click (534, 1228)
Your task to perform on an android device: Clear the shopping cart on target. Add "logitech g903" to the cart on target Image 33: 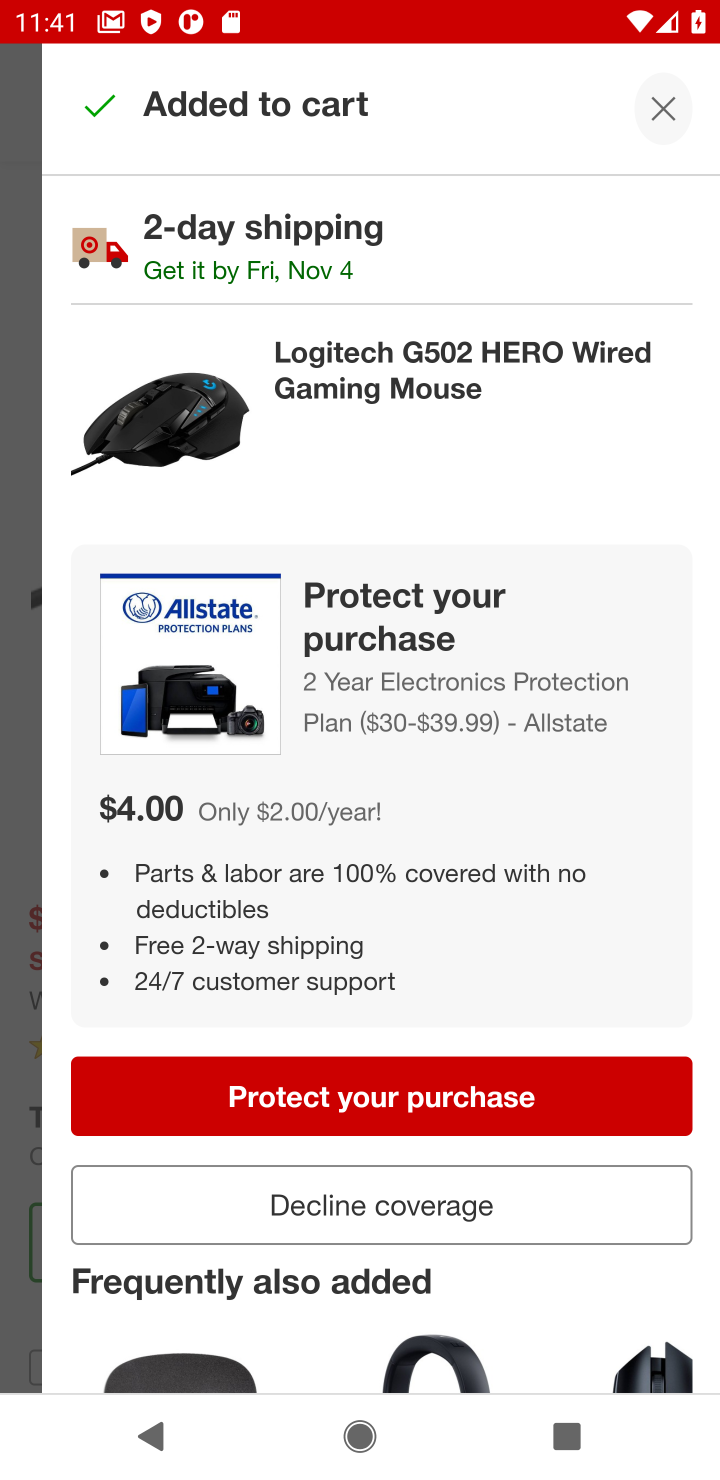
Step 33: task complete